Your task to perform on an android device: Search for the best rated Bluetooth earbuds on Ali express Image 0: 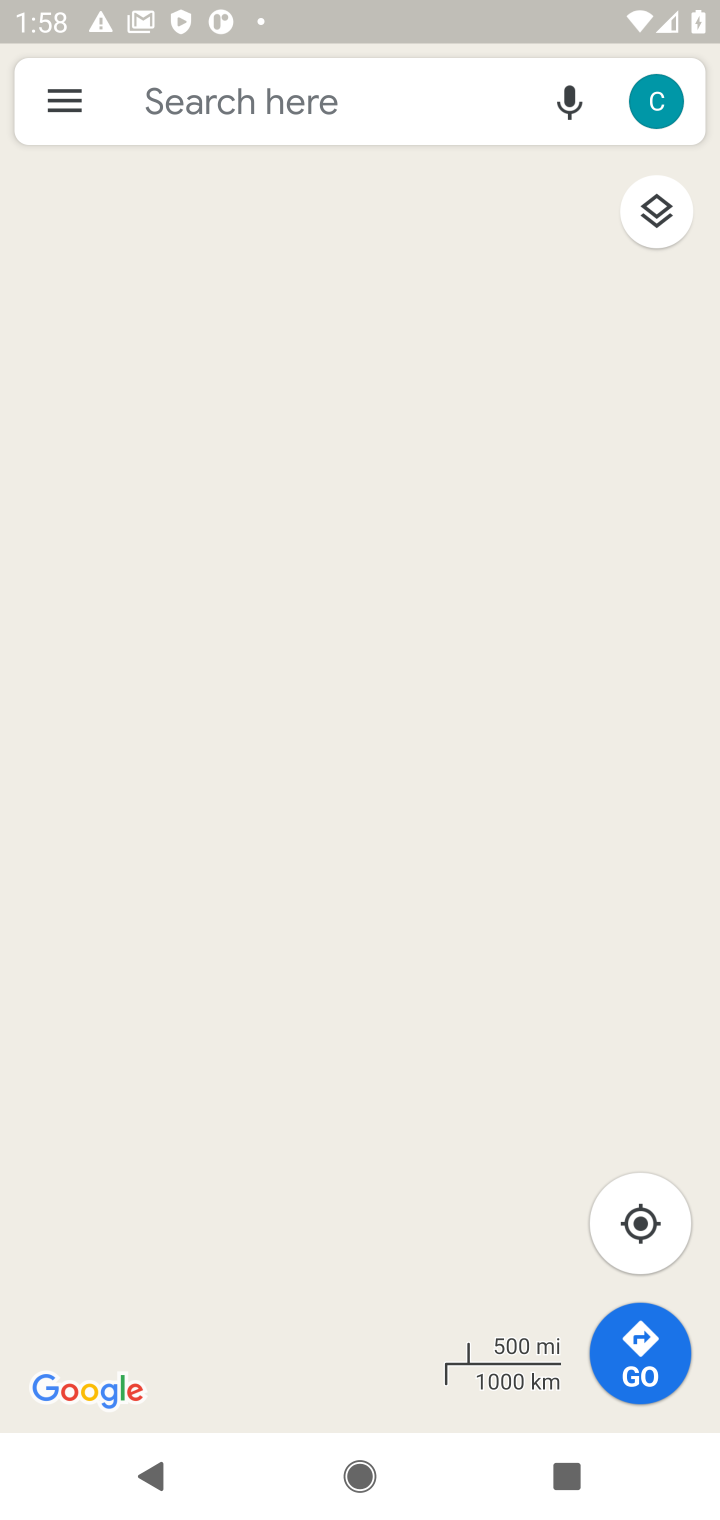
Step 0: press home button
Your task to perform on an android device: Search for the best rated Bluetooth earbuds on Ali express Image 1: 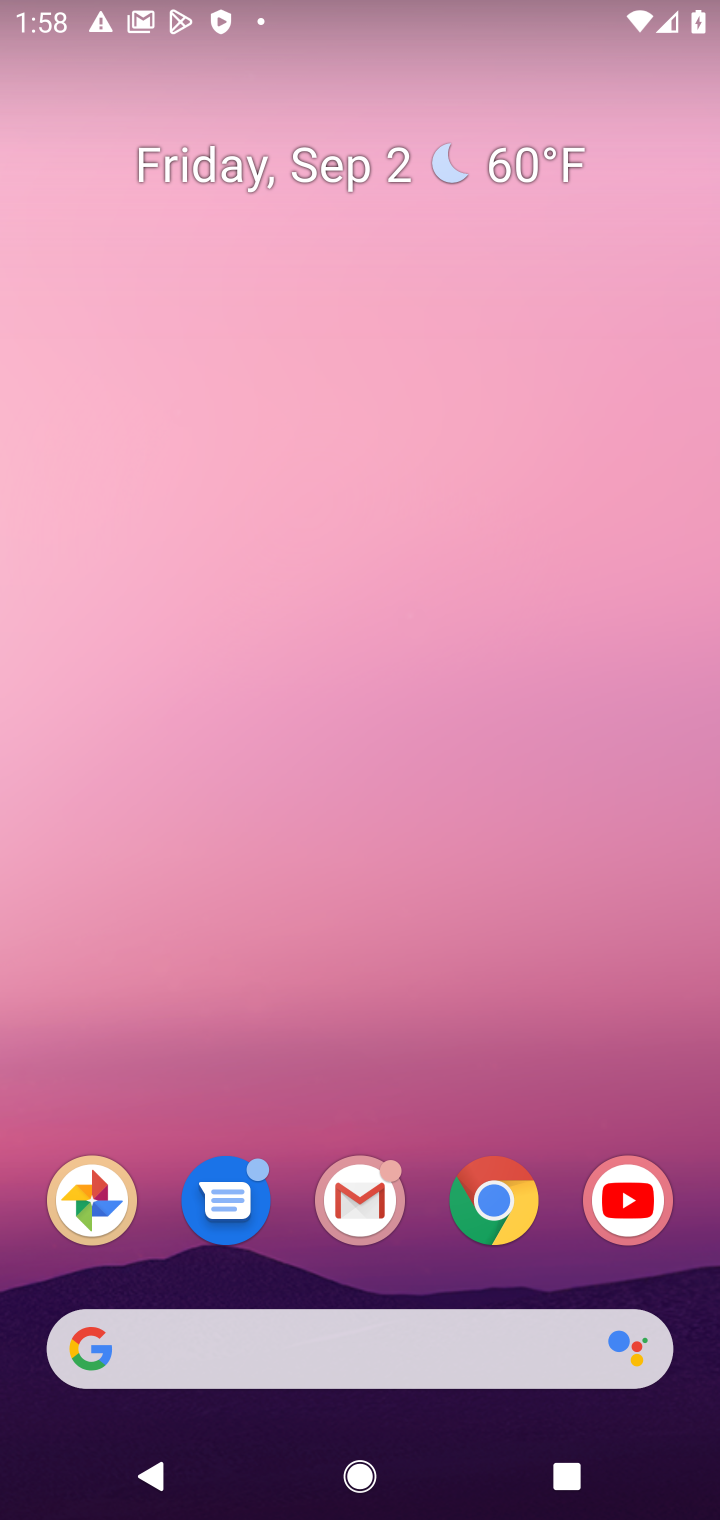
Step 1: click (485, 1186)
Your task to perform on an android device: Search for the best rated Bluetooth earbuds on Ali express Image 2: 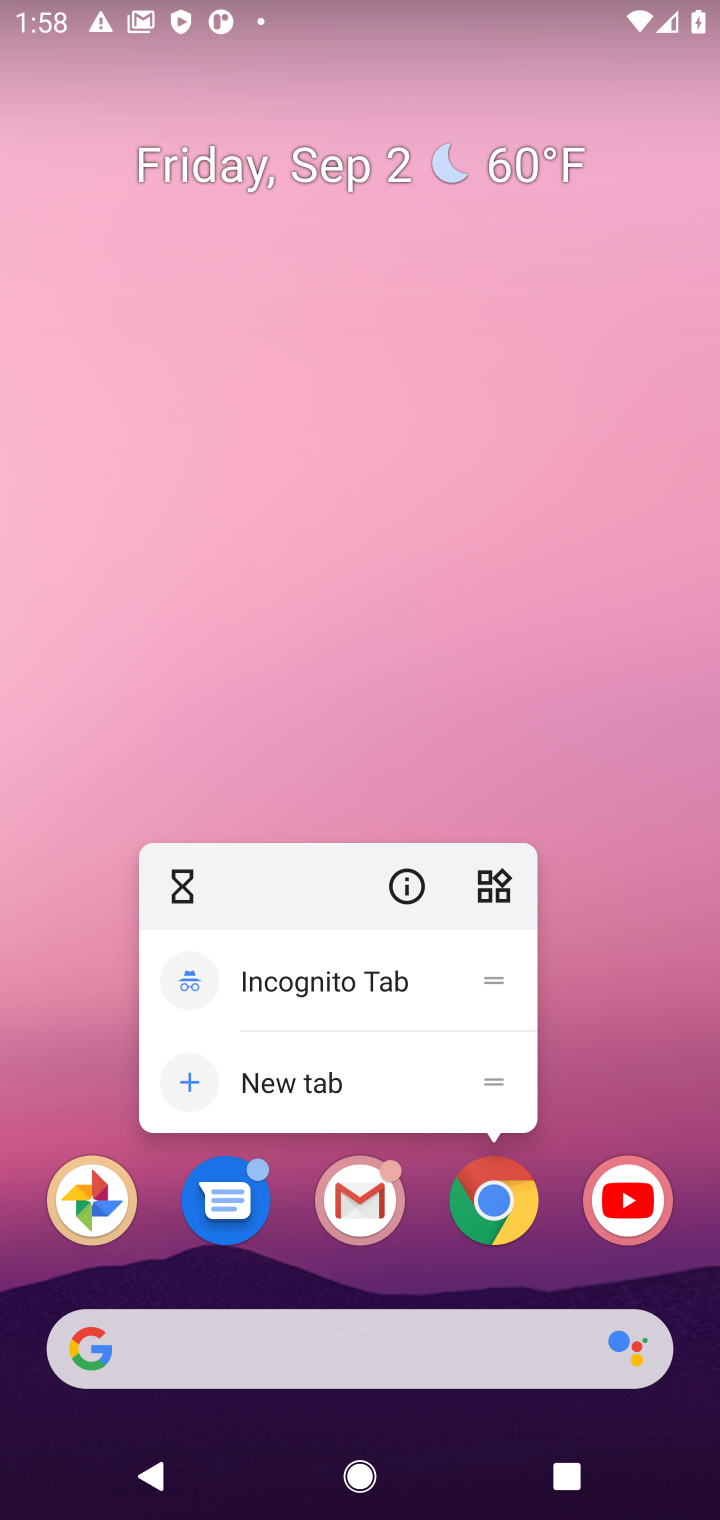
Step 2: click (485, 1186)
Your task to perform on an android device: Search for the best rated Bluetooth earbuds on Ali express Image 3: 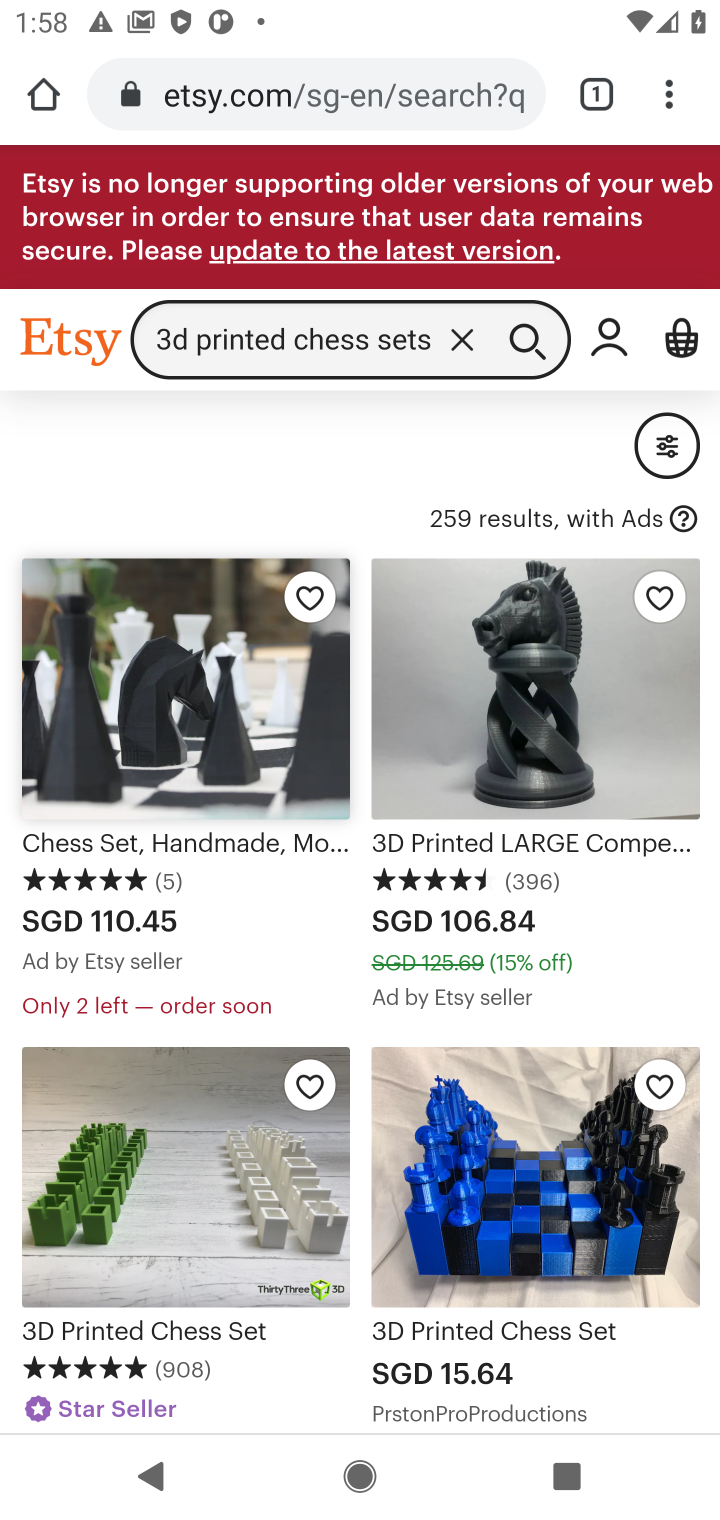
Step 3: click (477, 78)
Your task to perform on an android device: Search for the best rated Bluetooth earbuds on Ali express Image 4: 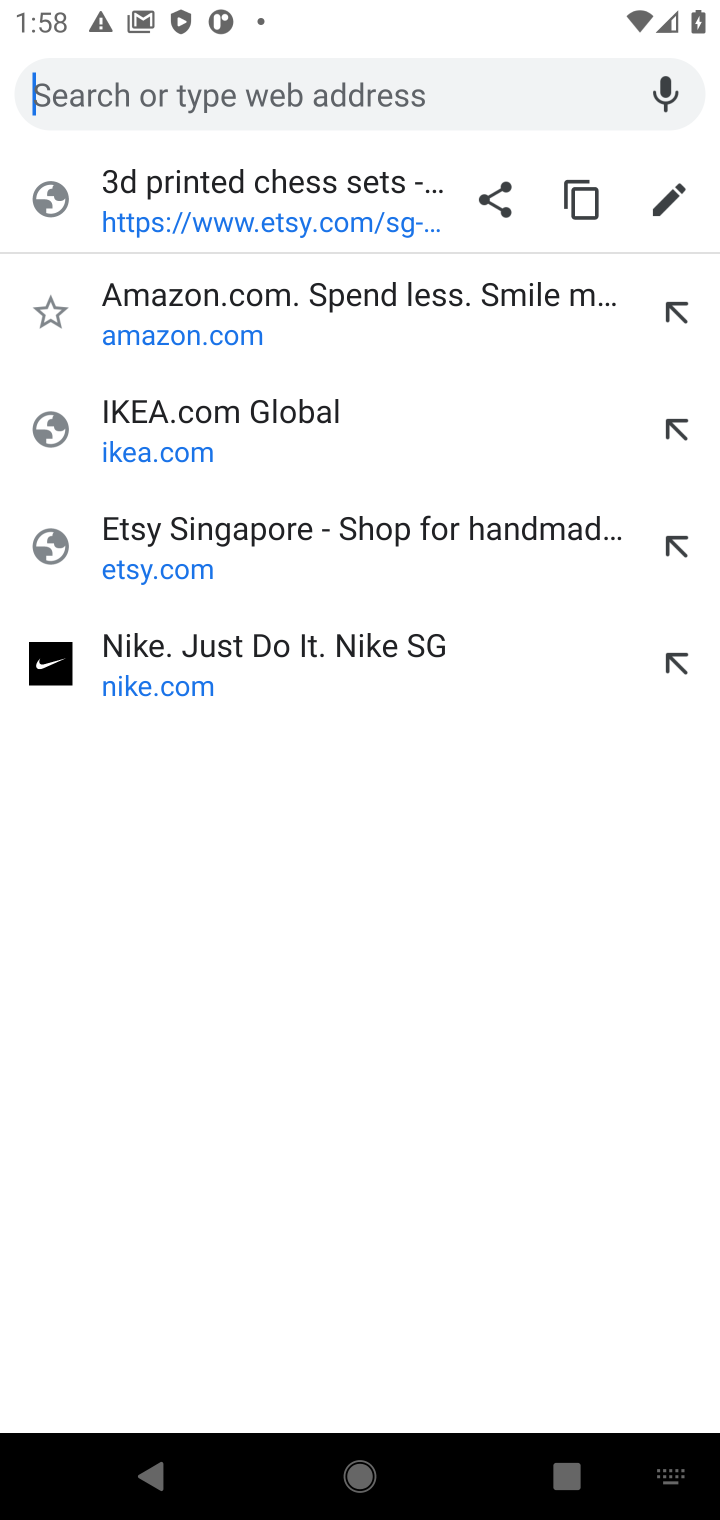
Step 4: type "Ali express"
Your task to perform on an android device: Search for the best rated Bluetooth earbuds on Ali express Image 5: 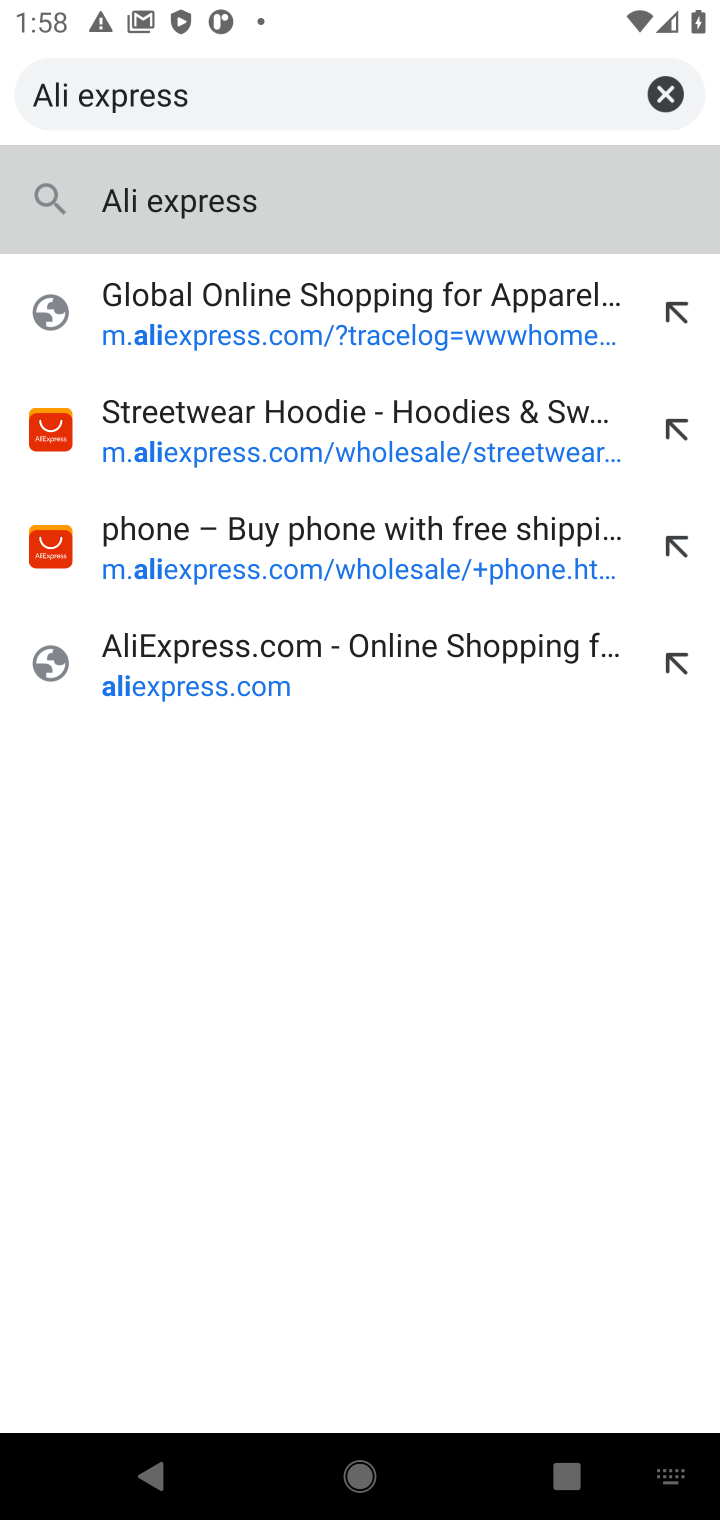
Step 5: press enter
Your task to perform on an android device: Search for the best rated Bluetooth earbuds on Ali express Image 6: 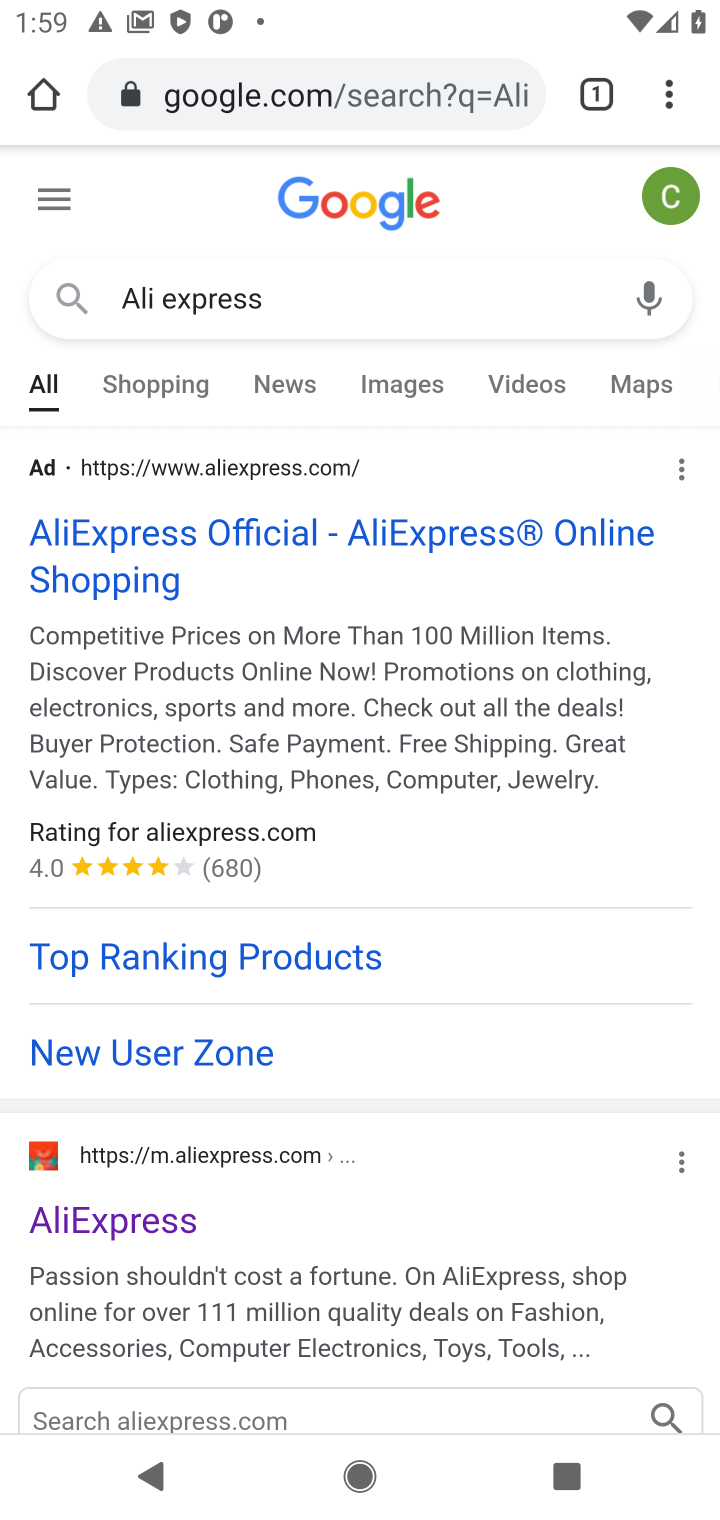
Step 6: click (405, 537)
Your task to perform on an android device: Search for the best rated Bluetooth earbuds on Ali express Image 7: 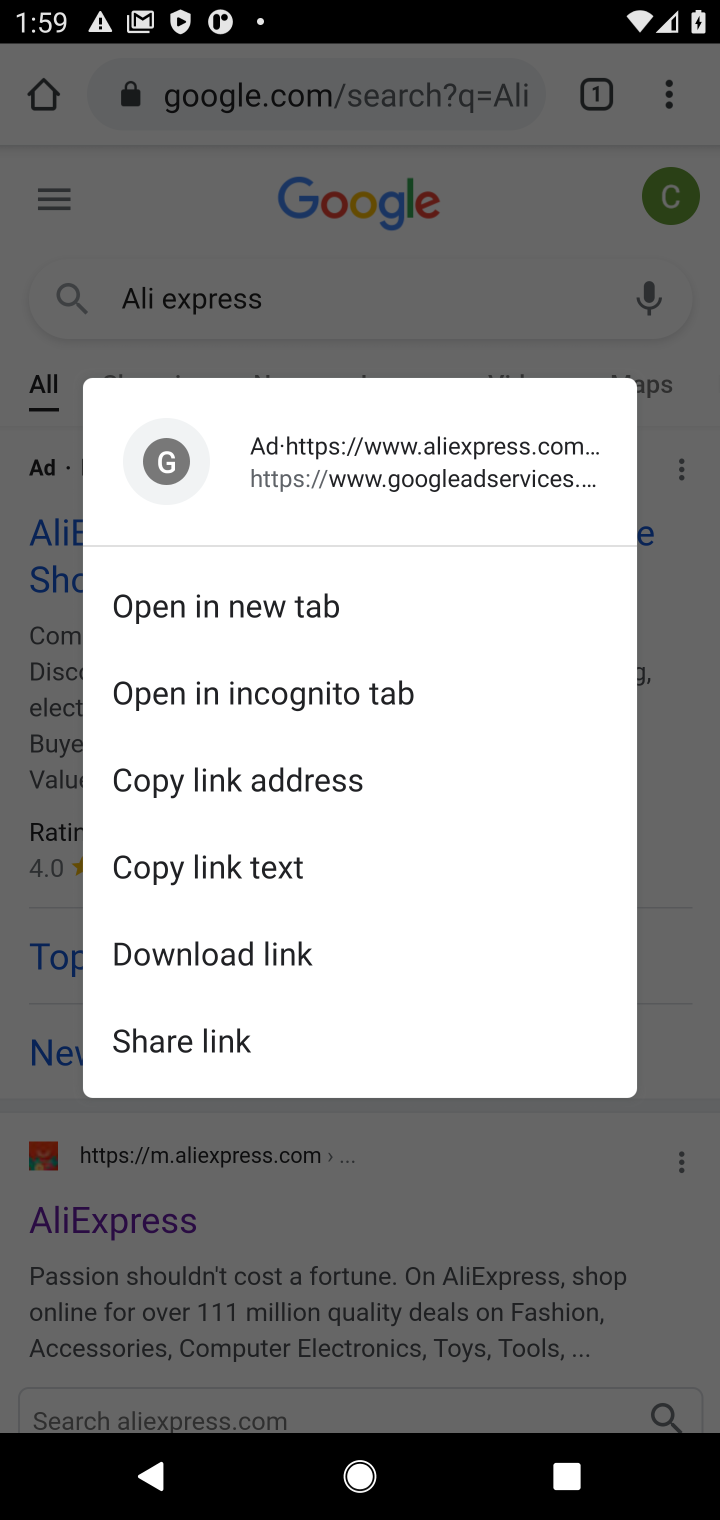
Step 7: click (629, 1143)
Your task to perform on an android device: Search for the best rated Bluetooth earbuds on Ali express Image 8: 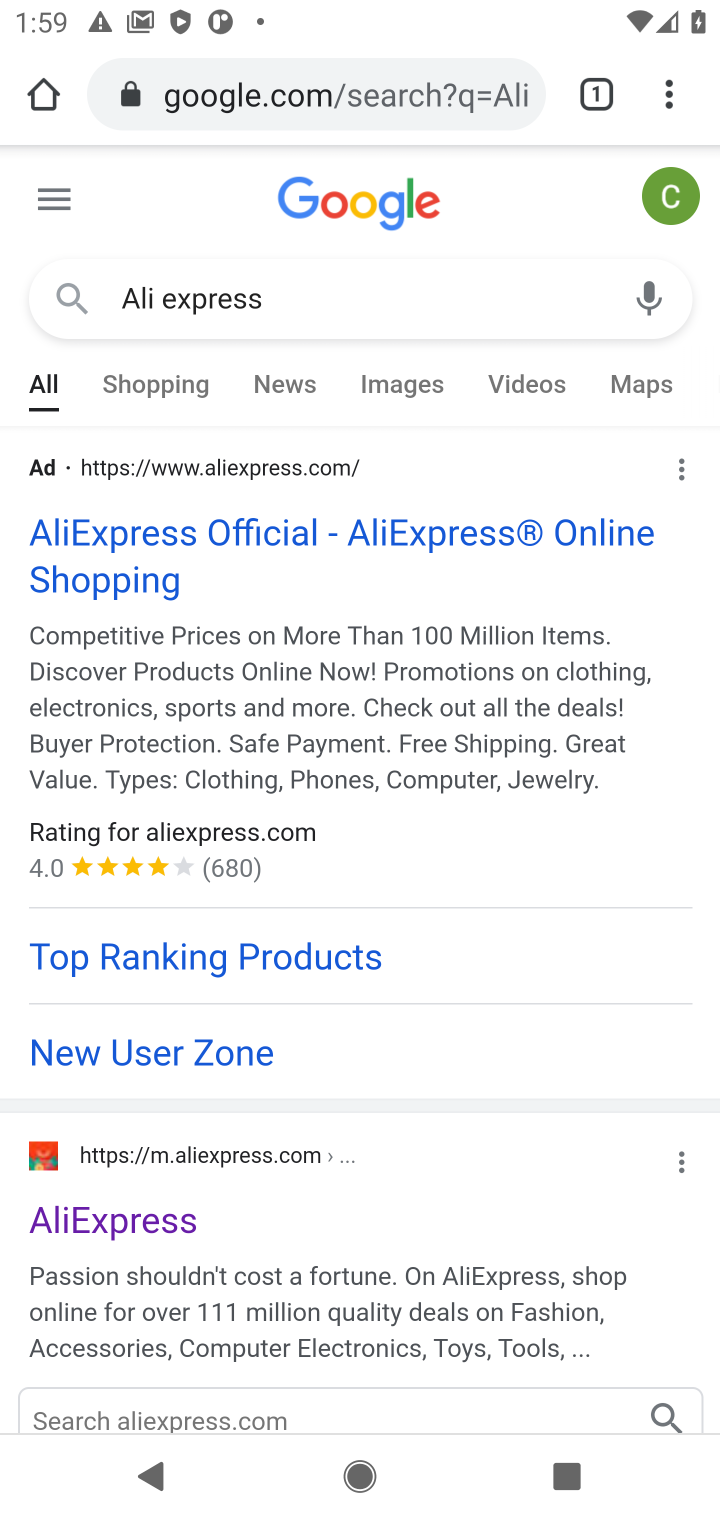
Step 8: click (375, 524)
Your task to perform on an android device: Search for the best rated Bluetooth earbuds on Ali express Image 9: 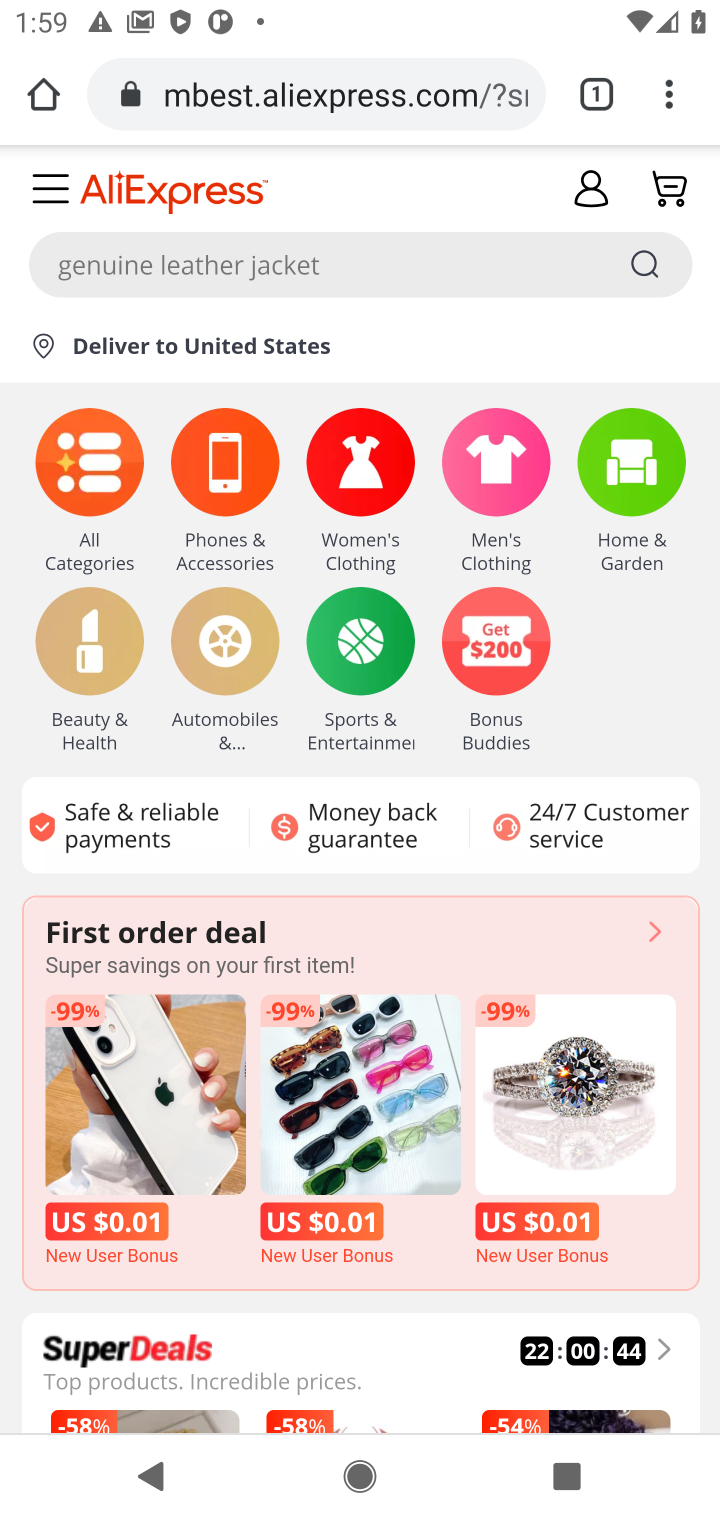
Step 9: click (337, 257)
Your task to perform on an android device: Search for the best rated Bluetooth earbuds on Ali express Image 10: 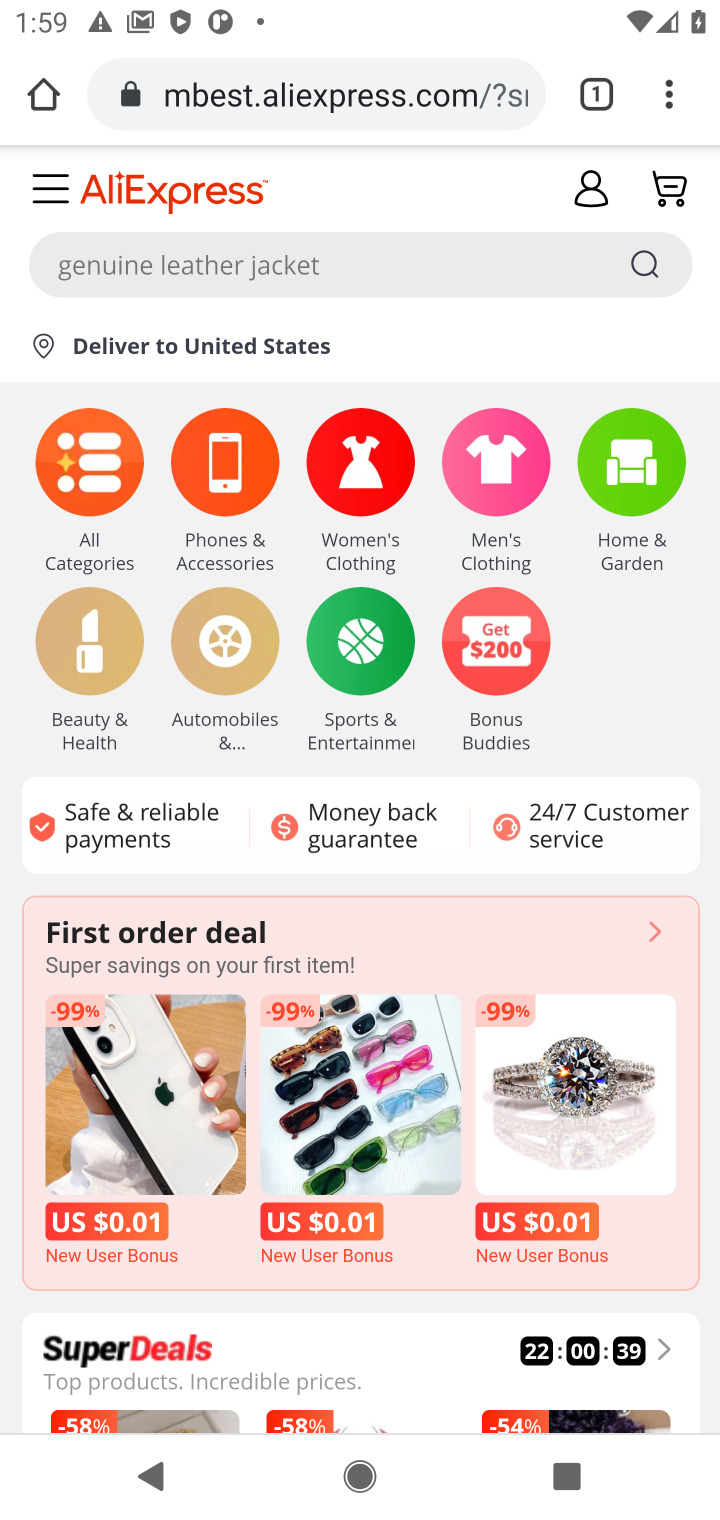
Step 10: click (295, 263)
Your task to perform on an android device: Search for the best rated Bluetooth earbuds on Ali express Image 11: 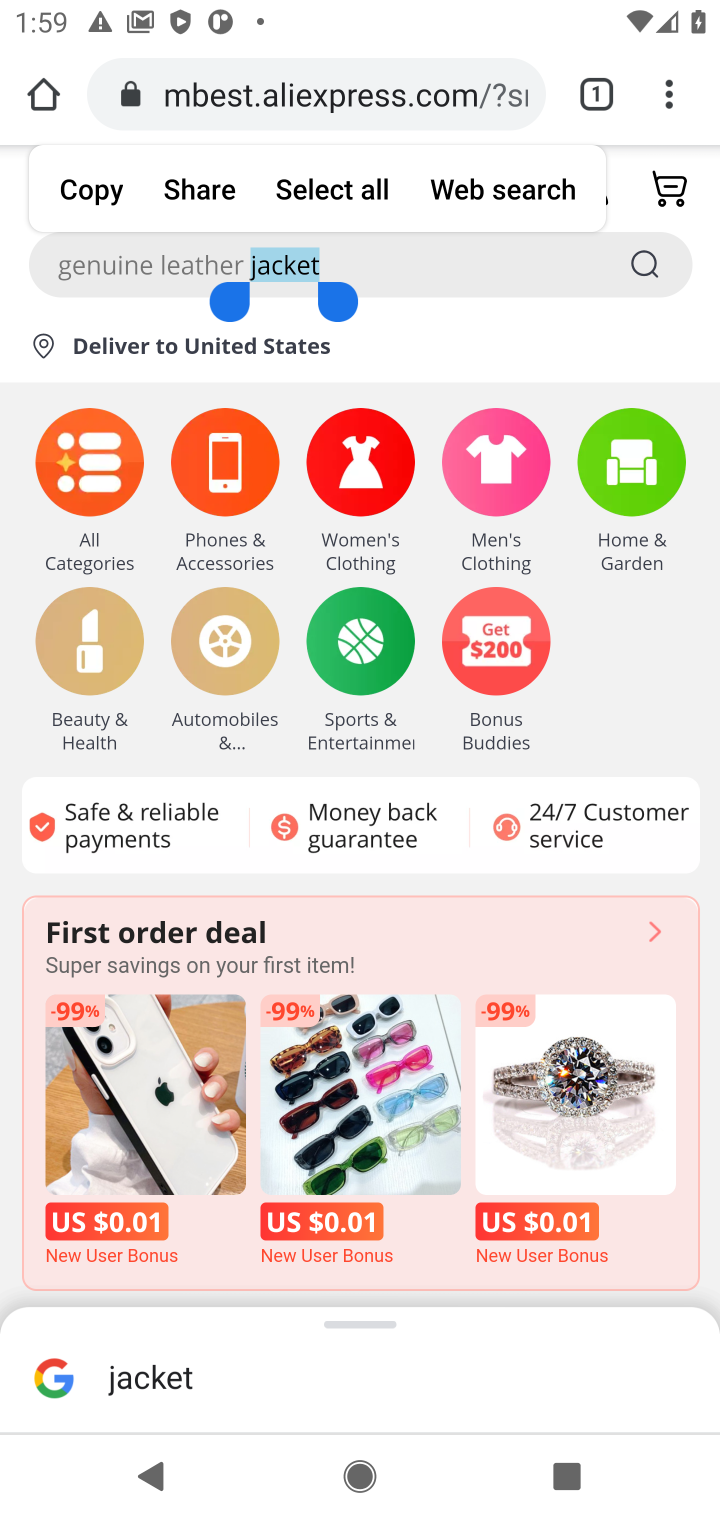
Step 11: click (642, 261)
Your task to perform on an android device: Search for the best rated Bluetooth earbuds on Ali express Image 12: 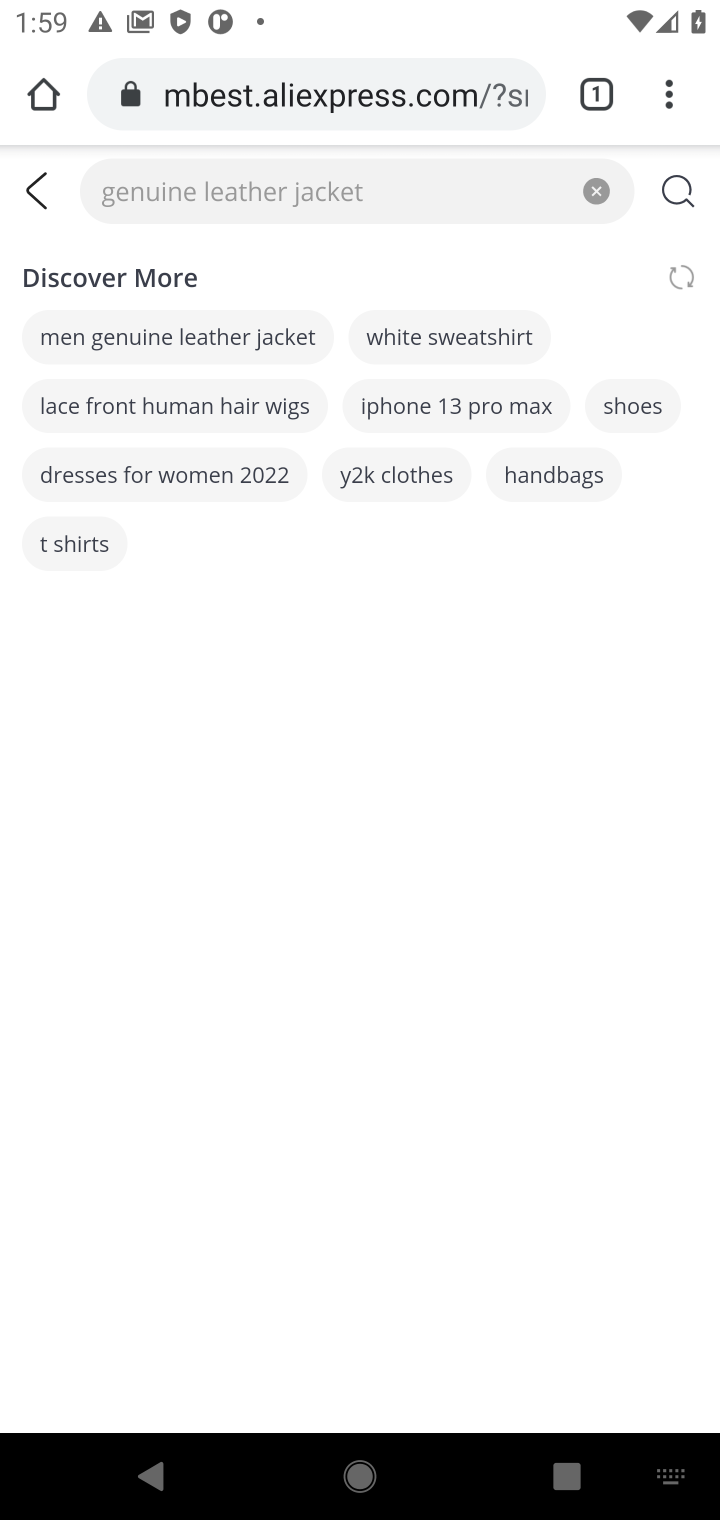
Step 12: click (585, 183)
Your task to perform on an android device: Search for the best rated Bluetooth earbuds on Ali express Image 13: 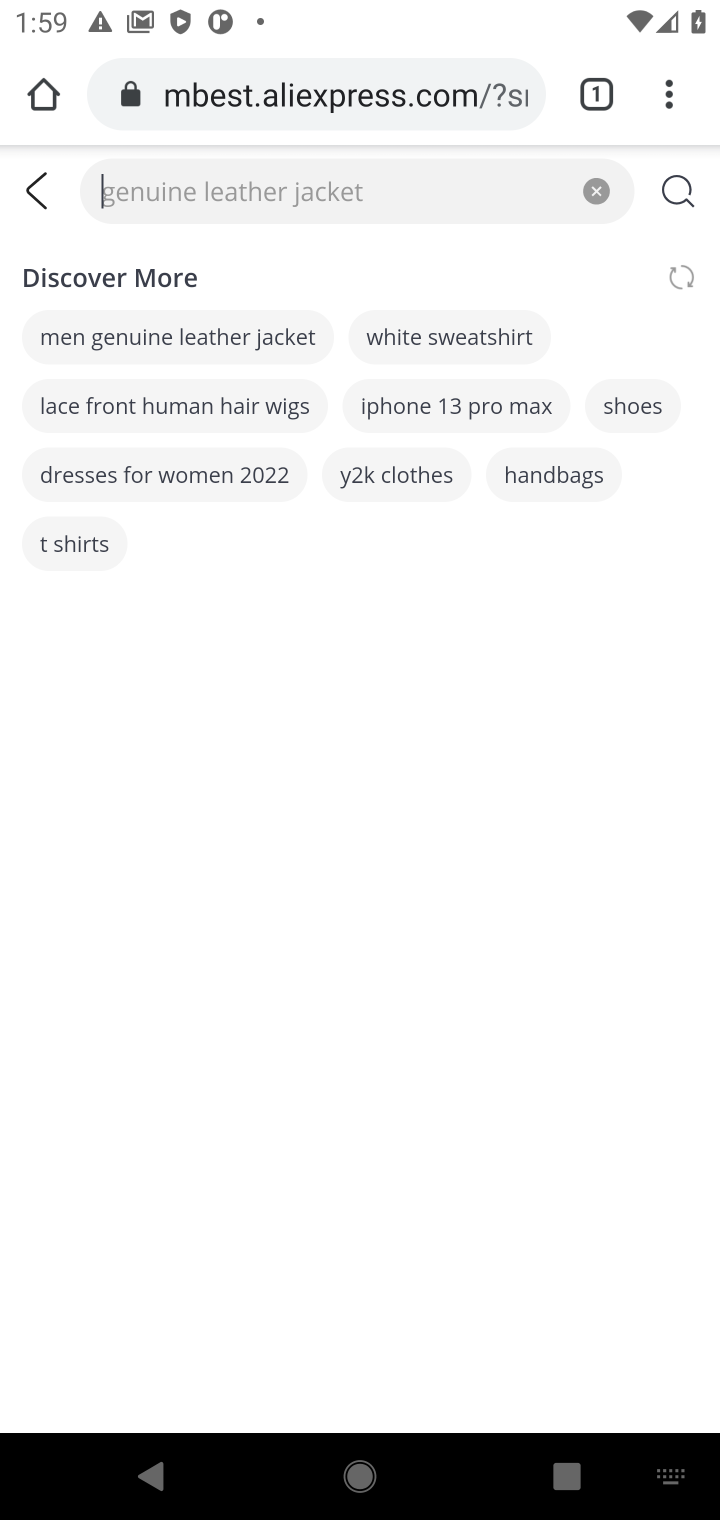
Step 13: click (595, 189)
Your task to perform on an android device: Search for the best rated Bluetooth earbuds on Ali express Image 14: 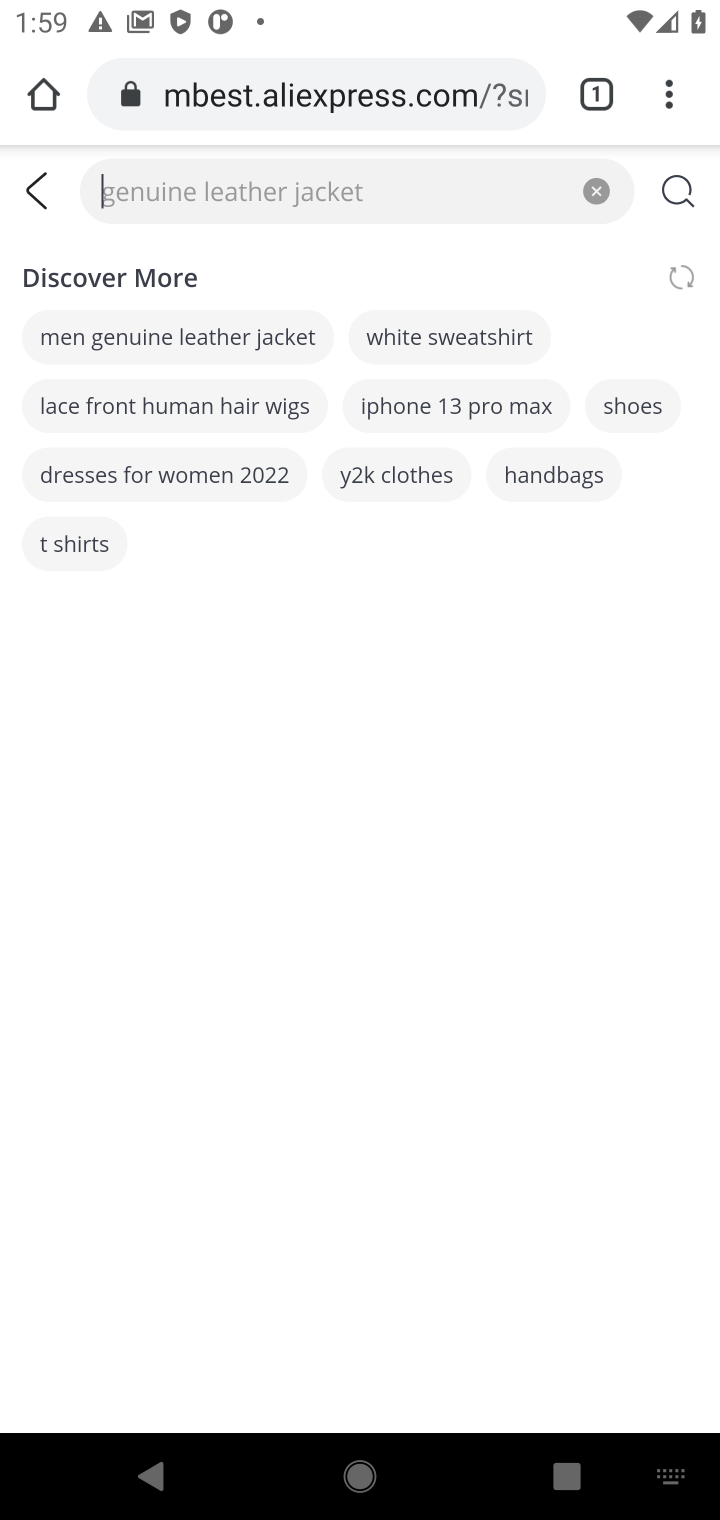
Step 14: click (591, 183)
Your task to perform on an android device: Search for the best rated Bluetooth earbuds on Ali express Image 15: 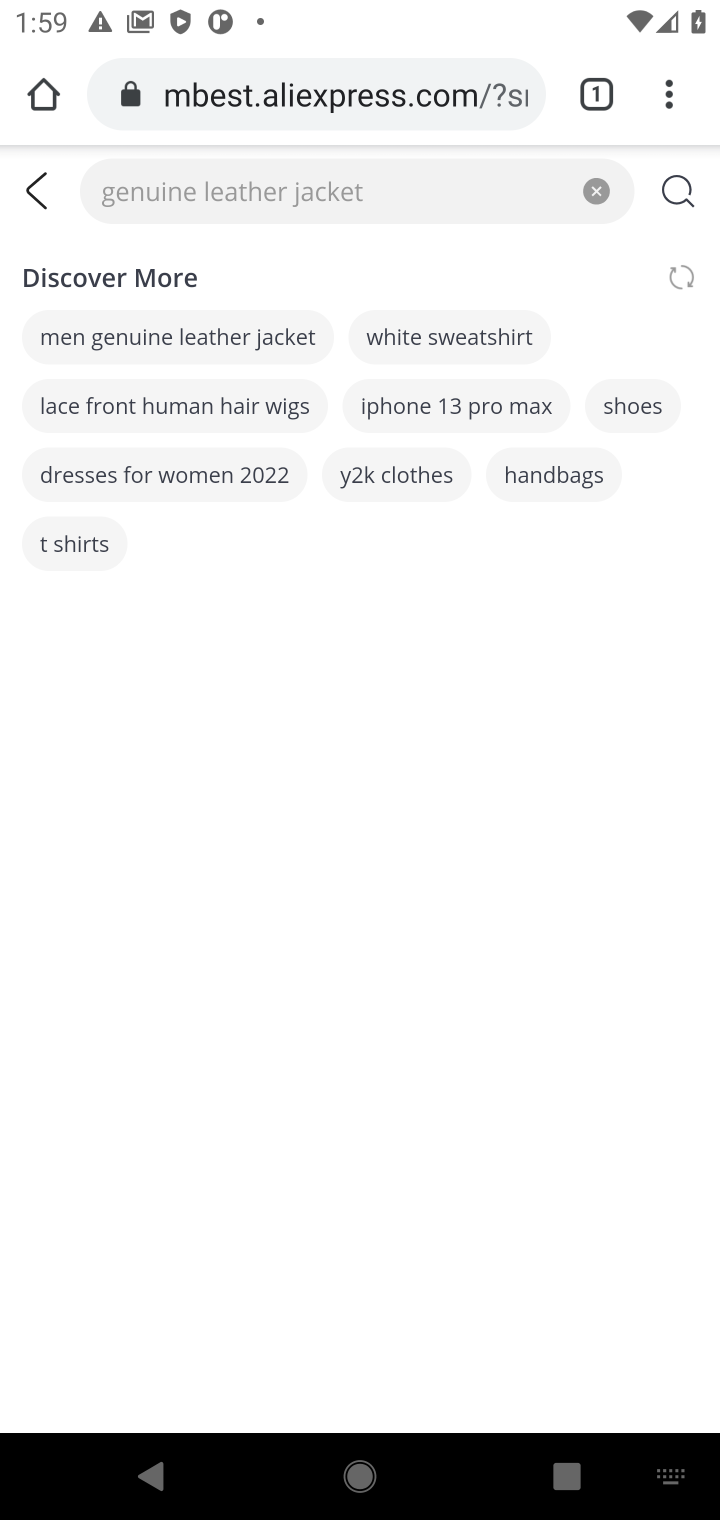
Step 15: click (512, 192)
Your task to perform on an android device: Search for the best rated Bluetooth earbuds on Ali express Image 16: 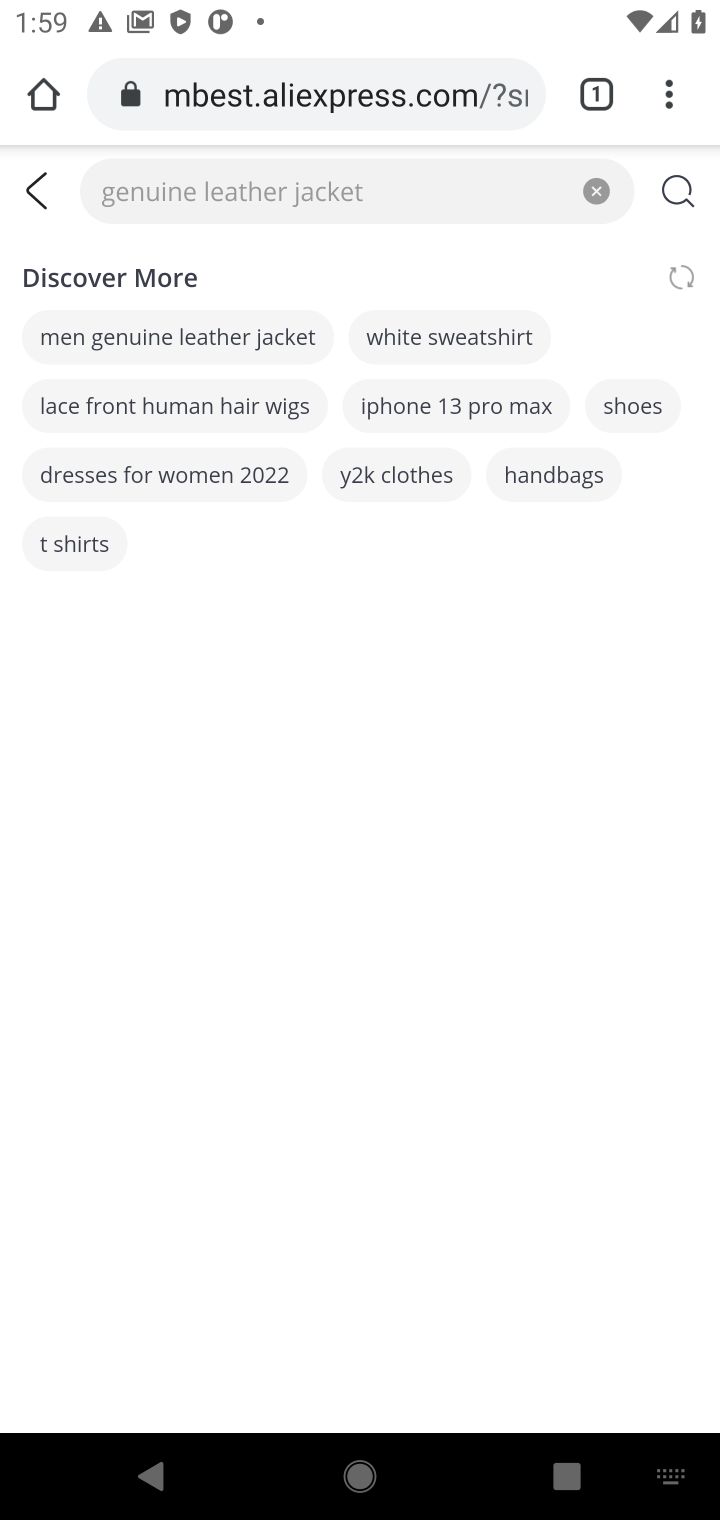
Step 16: press enter
Your task to perform on an android device: Search for the best rated Bluetooth earbuds on Ali express Image 17: 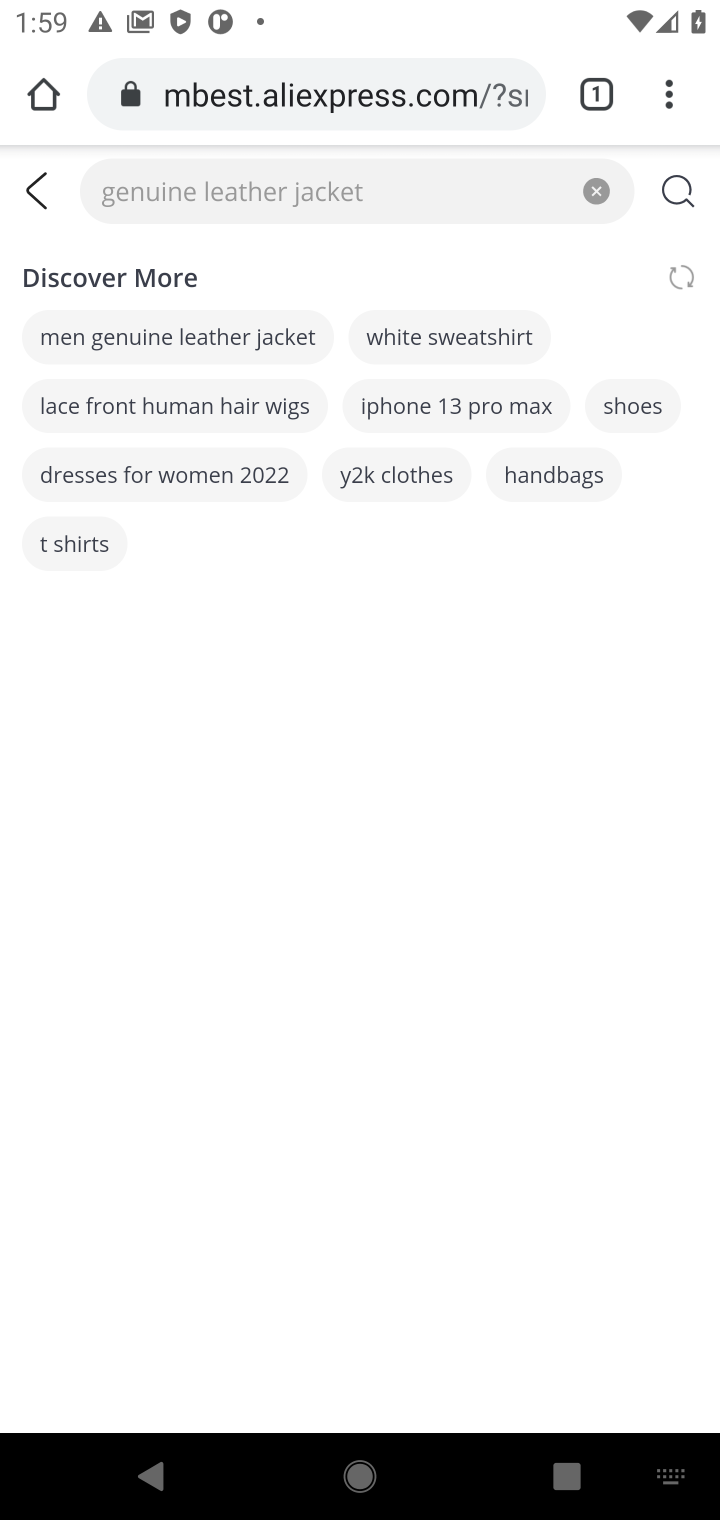
Step 17: type "Bluetooth earbuds"
Your task to perform on an android device: Search for the best rated Bluetooth earbuds on Ali express Image 18: 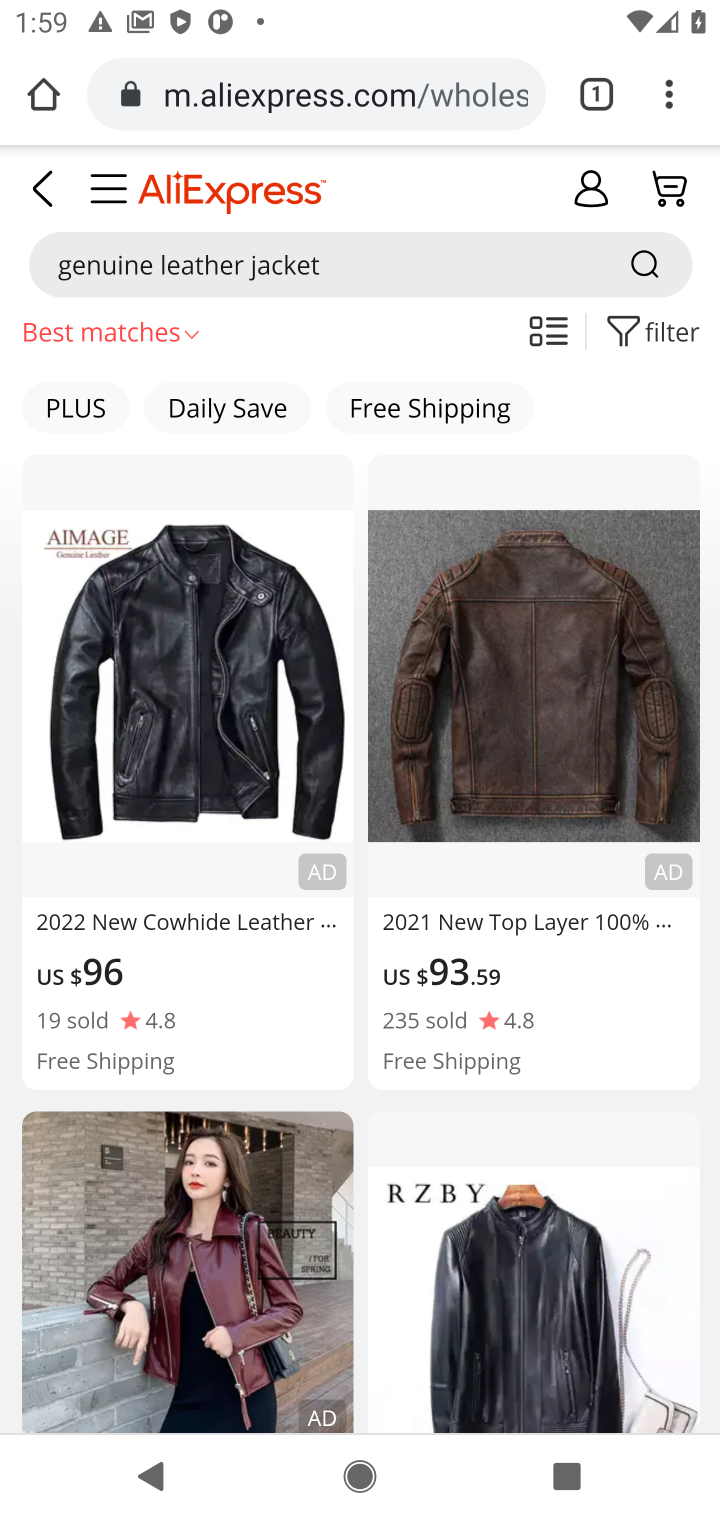
Step 18: click (459, 273)
Your task to perform on an android device: Search for the best rated Bluetooth earbuds on Ali express Image 19: 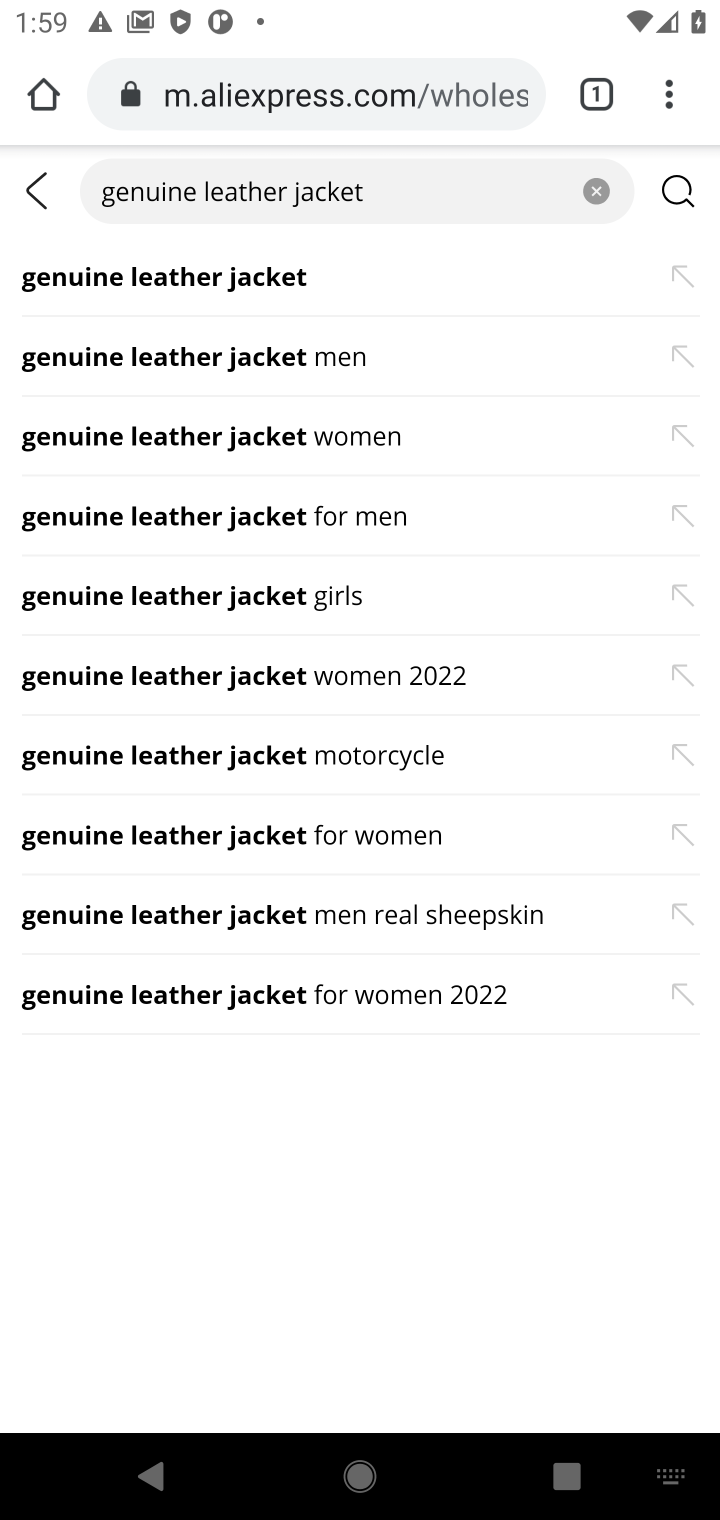
Step 19: click (635, 262)
Your task to perform on an android device: Search for the best rated Bluetooth earbuds on Ali express Image 20: 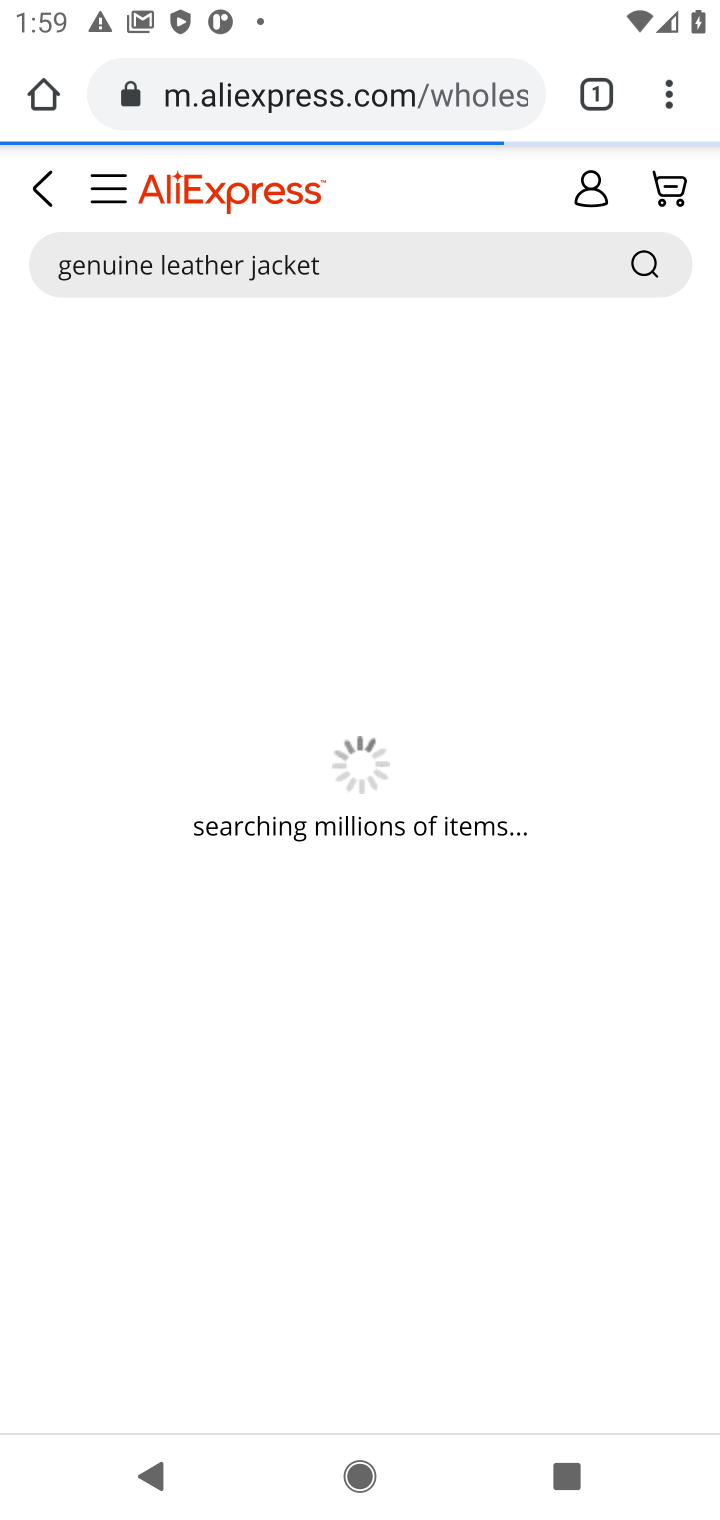
Step 20: click (593, 187)
Your task to perform on an android device: Search for the best rated Bluetooth earbuds on Ali express Image 21: 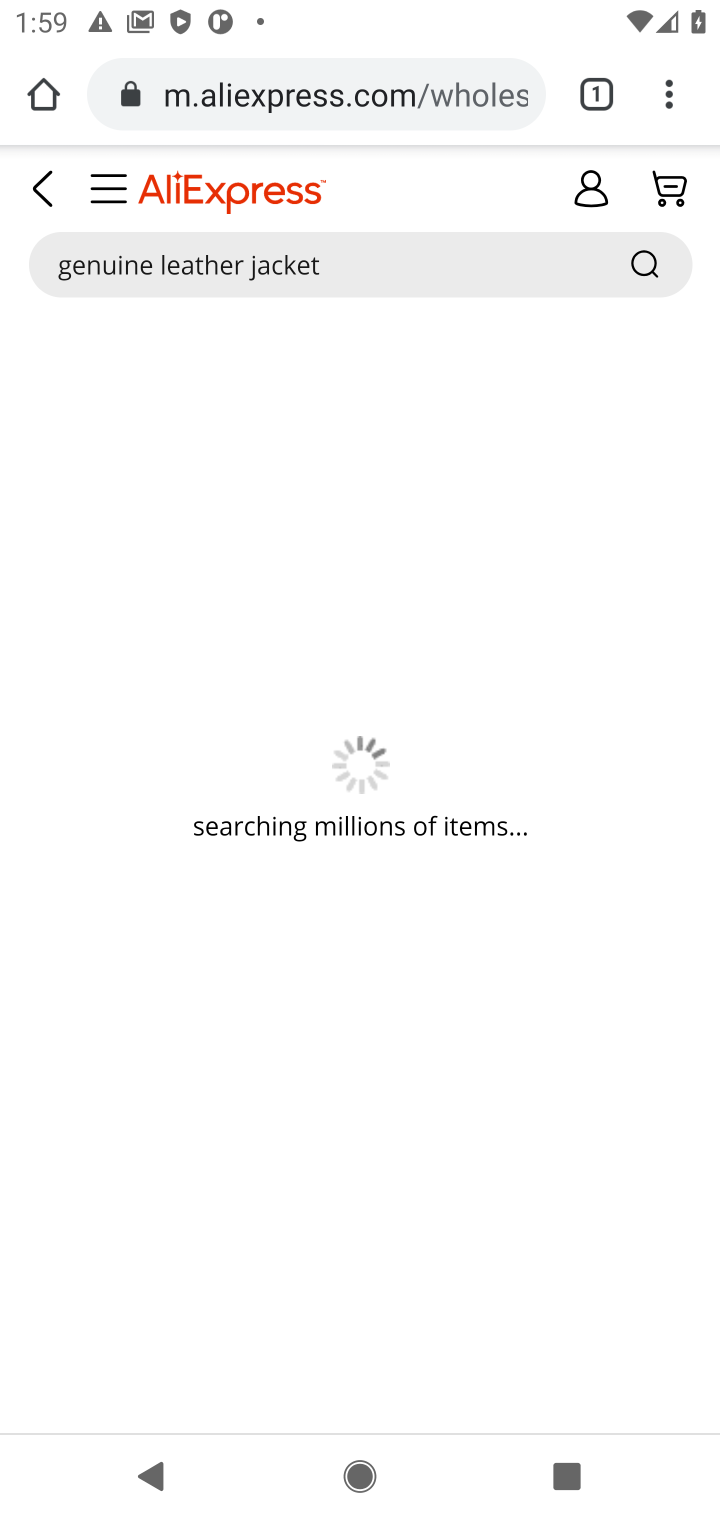
Step 21: click (597, 265)
Your task to perform on an android device: Search for the best rated Bluetooth earbuds on Ali express Image 22: 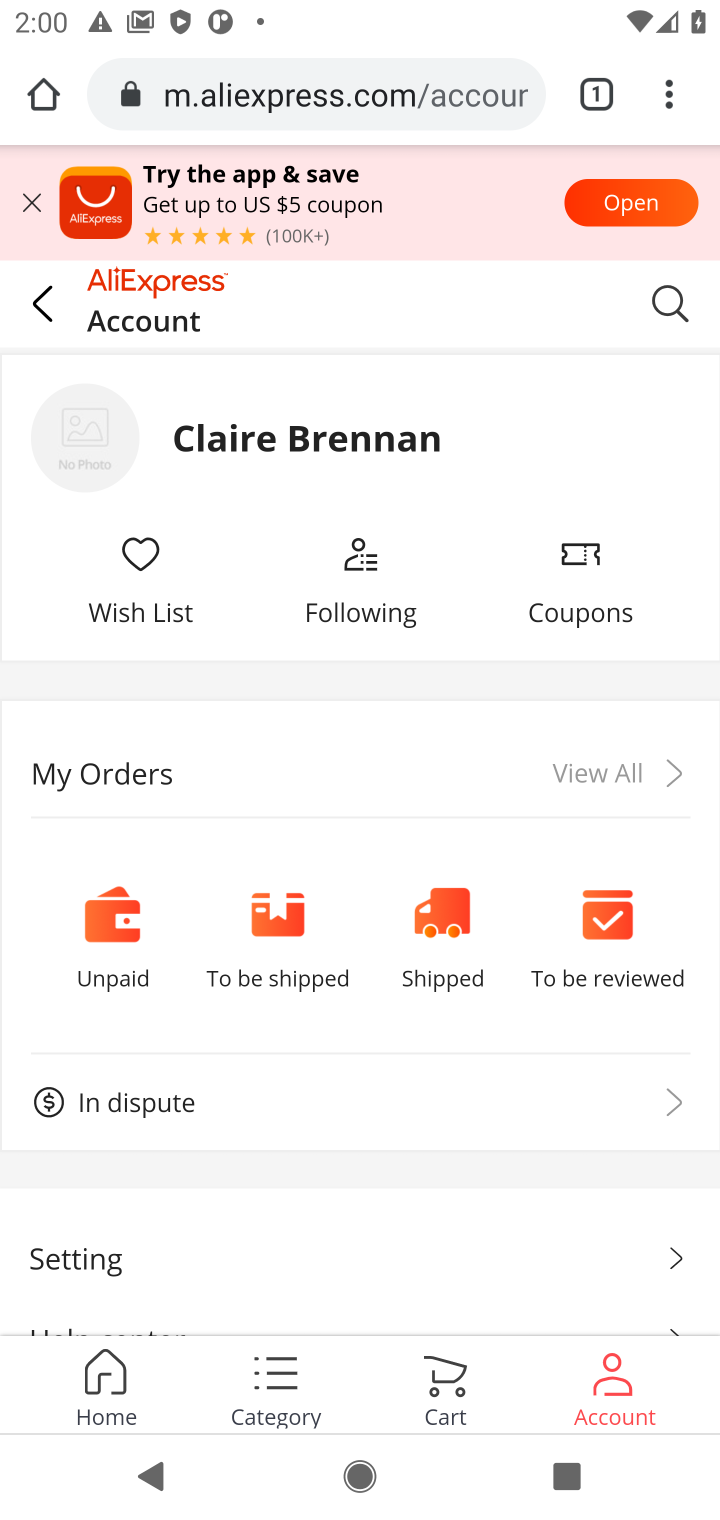
Step 22: press back button
Your task to perform on an android device: Search for the best rated Bluetooth earbuds on Ali express Image 23: 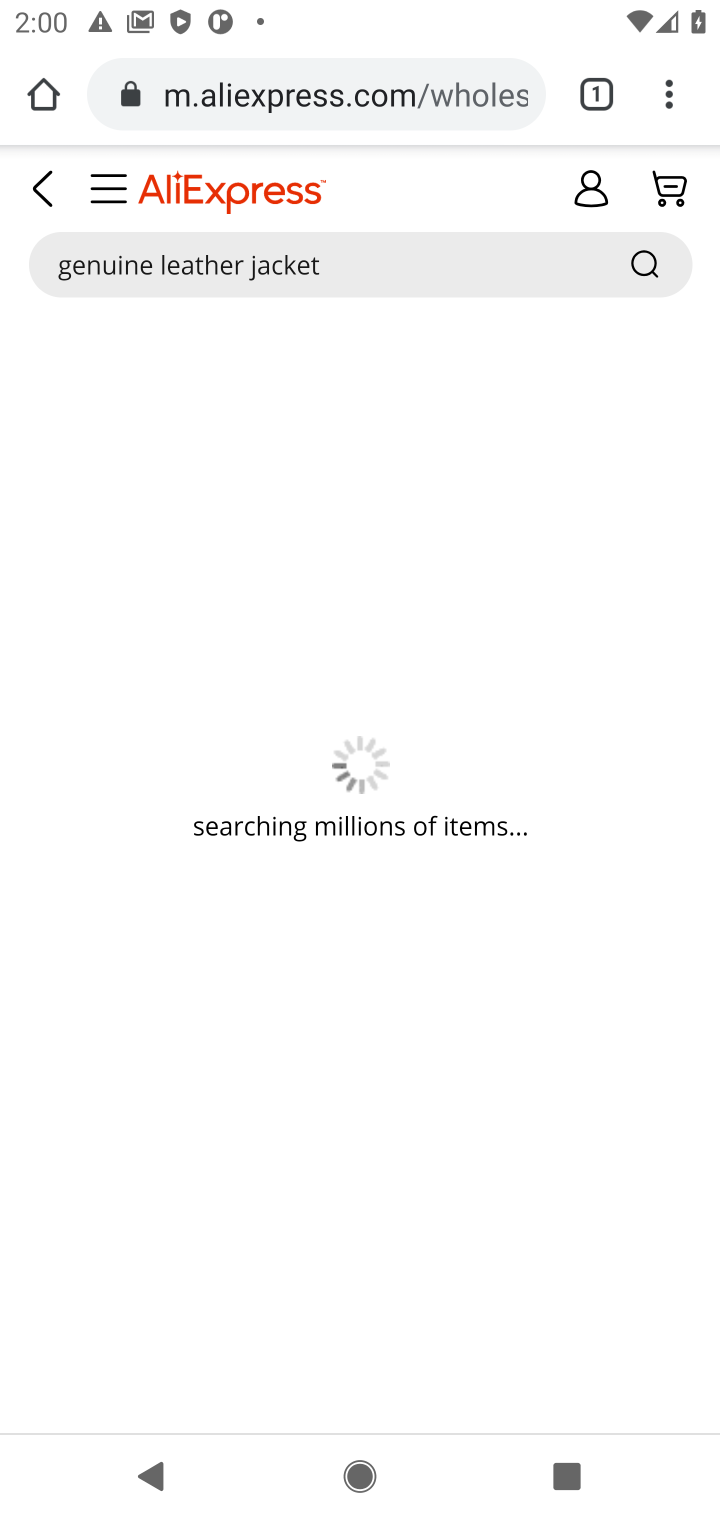
Step 23: click (638, 253)
Your task to perform on an android device: Search for the best rated Bluetooth earbuds on Ali express Image 24: 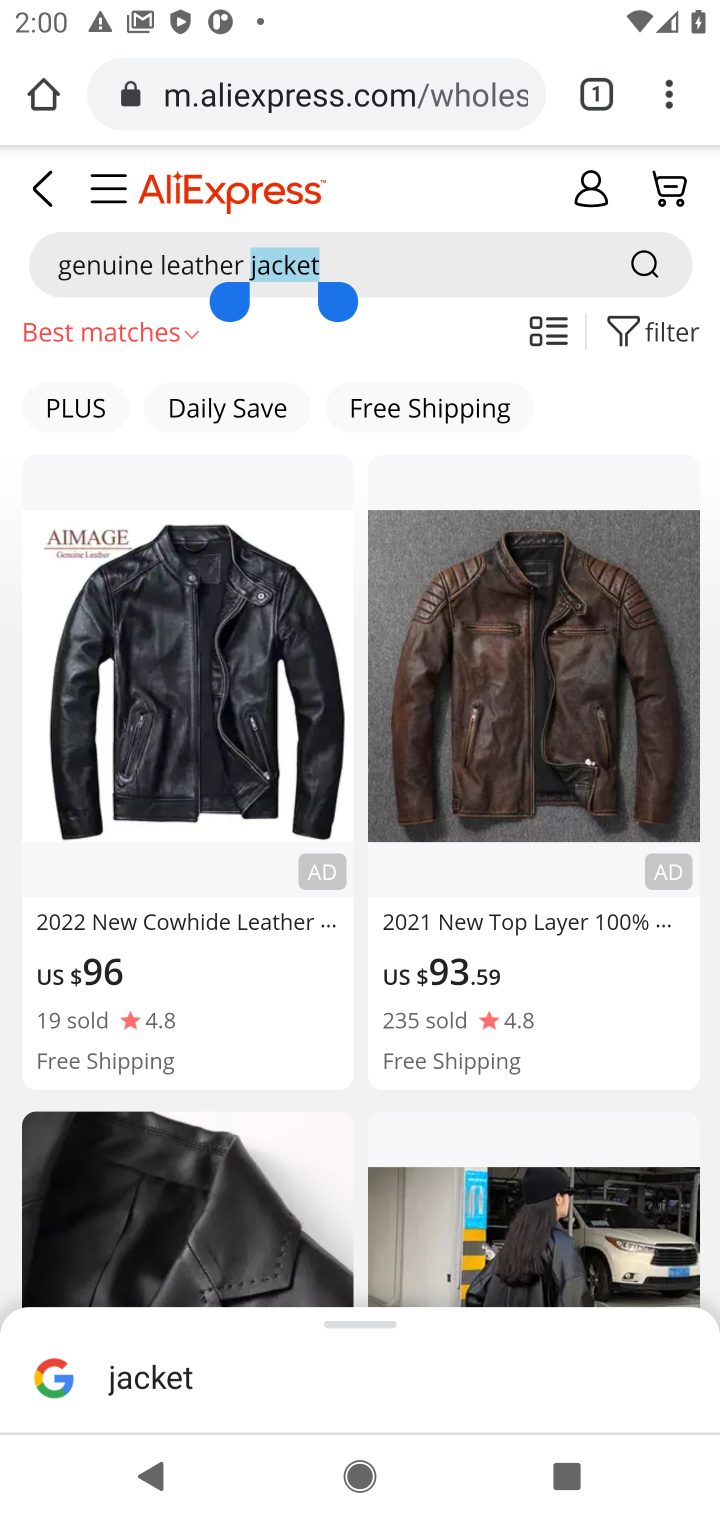
Step 24: click (642, 255)
Your task to perform on an android device: Search for the best rated Bluetooth earbuds on Ali express Image 25: 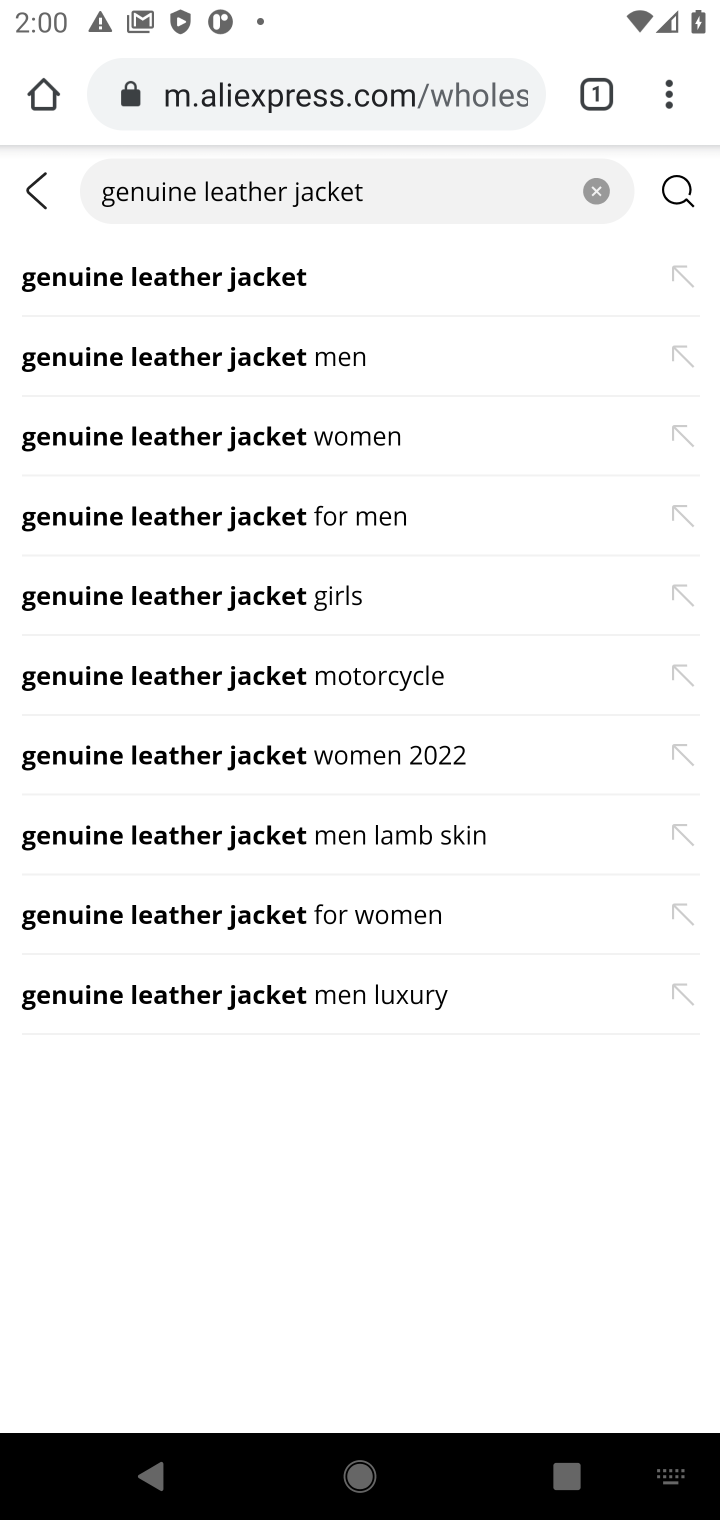
Step 25: click (589, 188)
Your task to perform on an android device: Search for the best rated Bluetooth earbuds on Ali express Image 26: 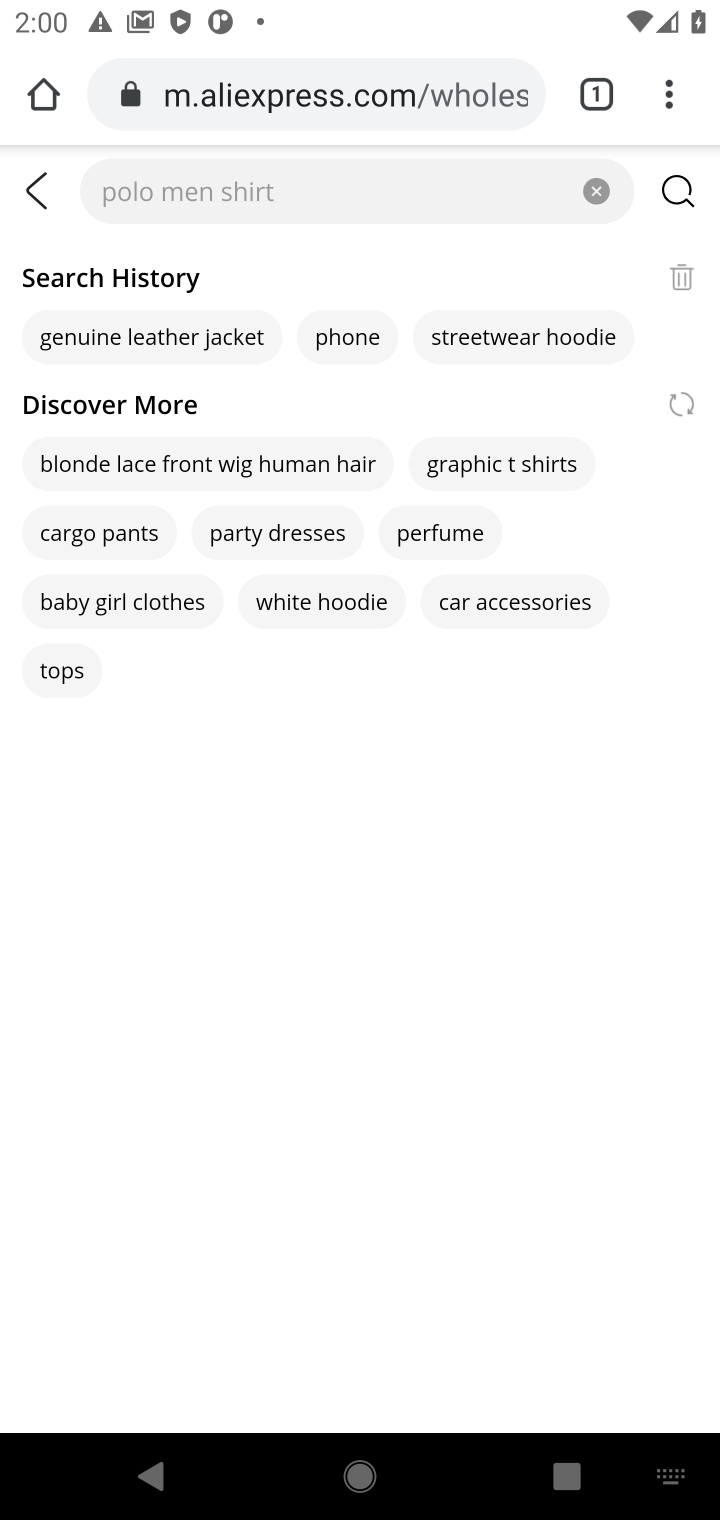
Step 26: click (481, 200)
Your task to perform on an android device: Search for the best rated Bluetooth earbuds on Ali express Image 27: 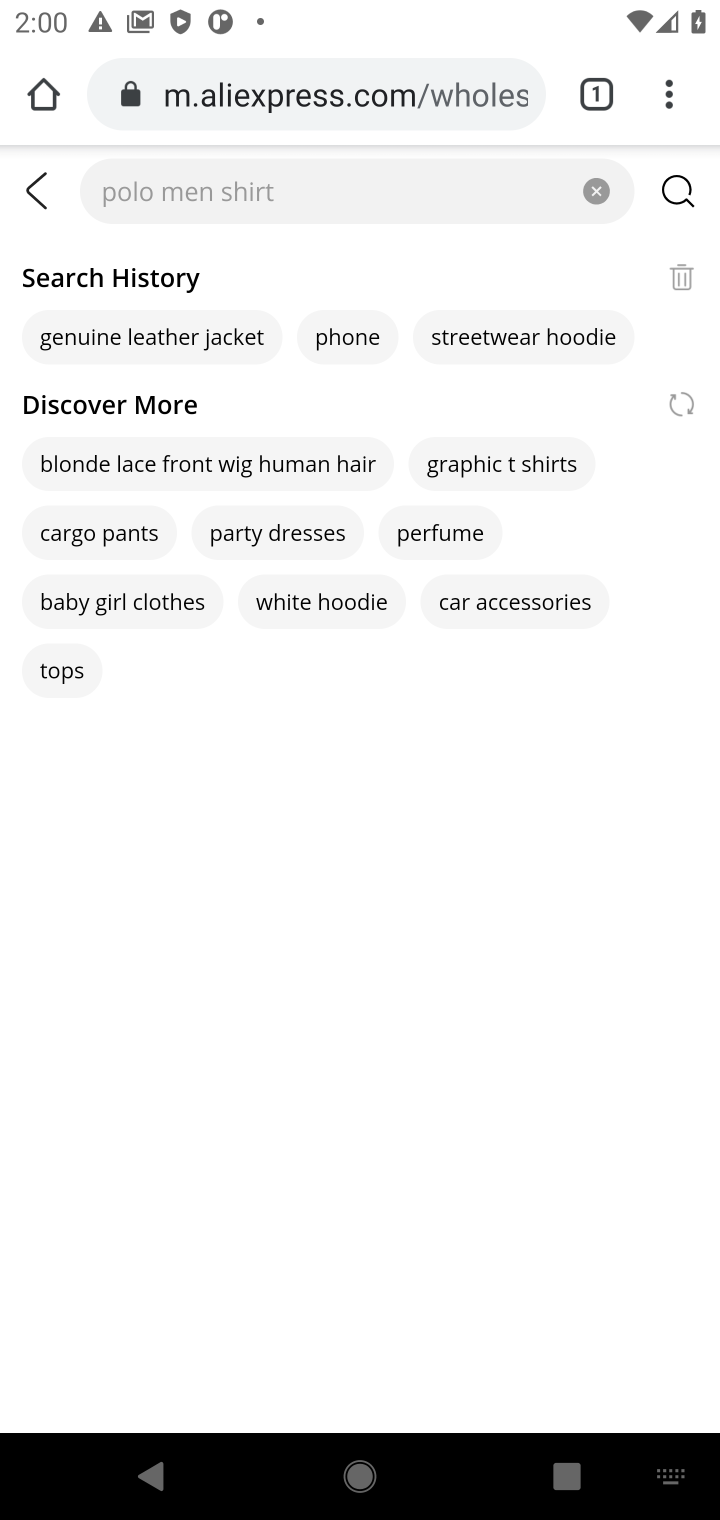
Step 27: click (490, 195)
Your task to perform on an android device: Search for the best rated Bluetooth earbuds on Ali express Image 28: 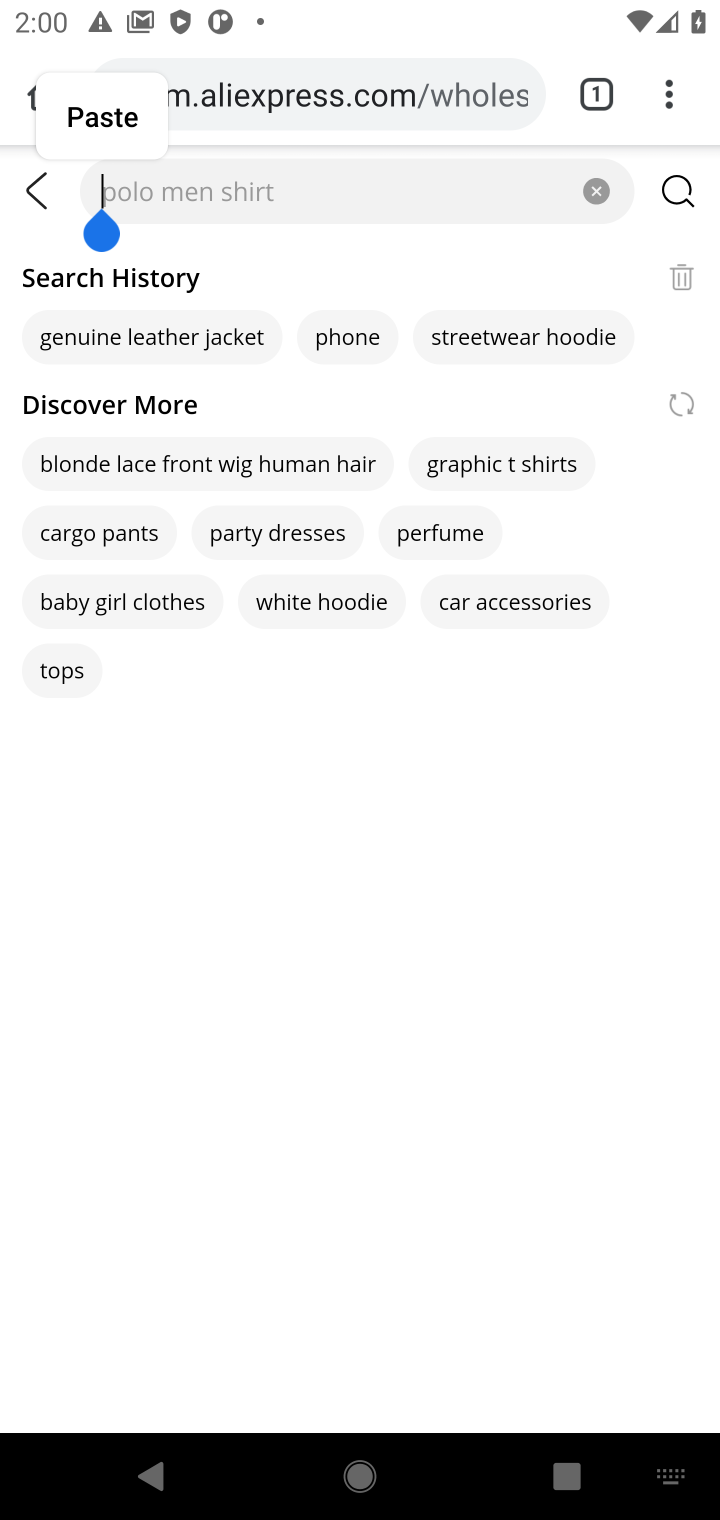
Step 28: type "Bluetooth earbuds "
Your task to perform on an android device: Search for the best rated Bluetooth earbuds on Ali express Image 29: 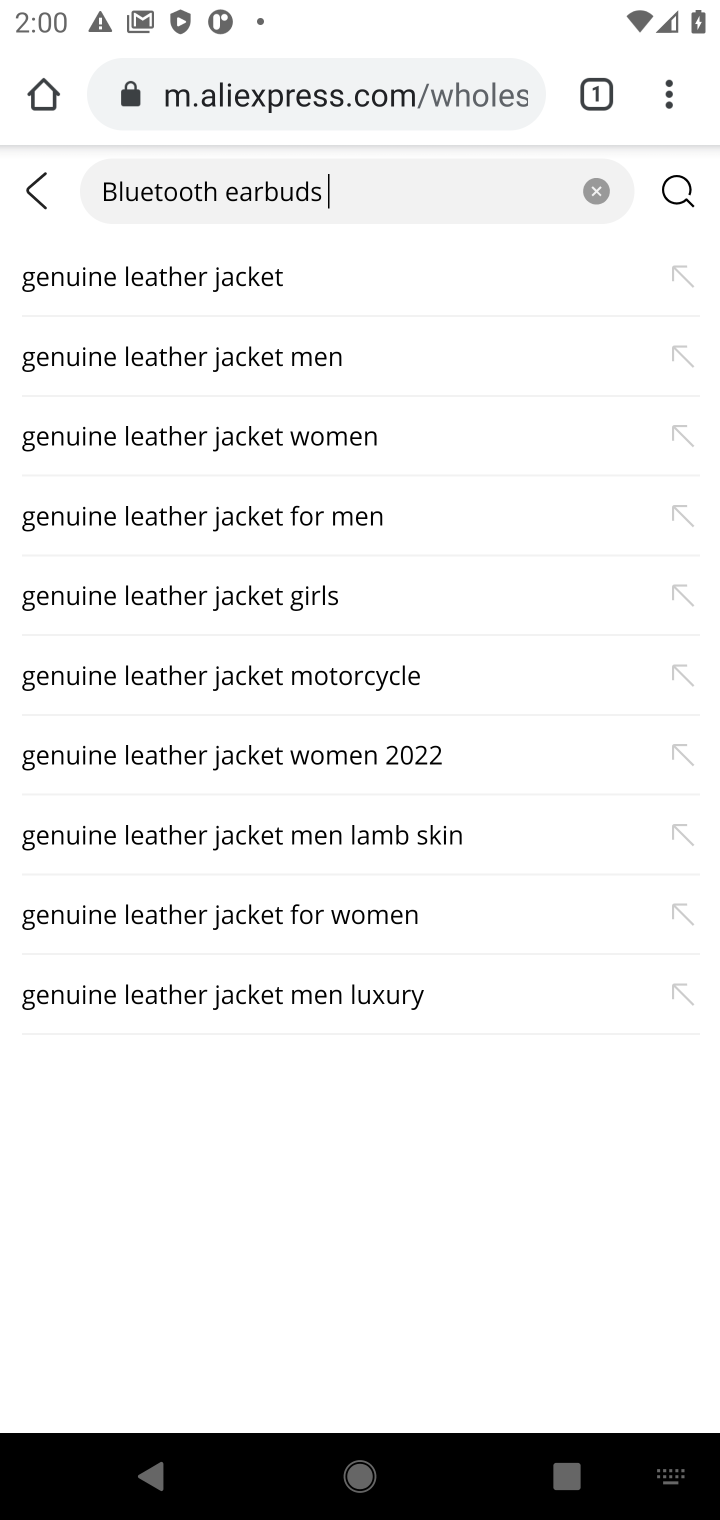
Step 29: press enter
Your task to perform on an android device: Search for the best rated Bluetooth earbuds on Ali express Image 30: 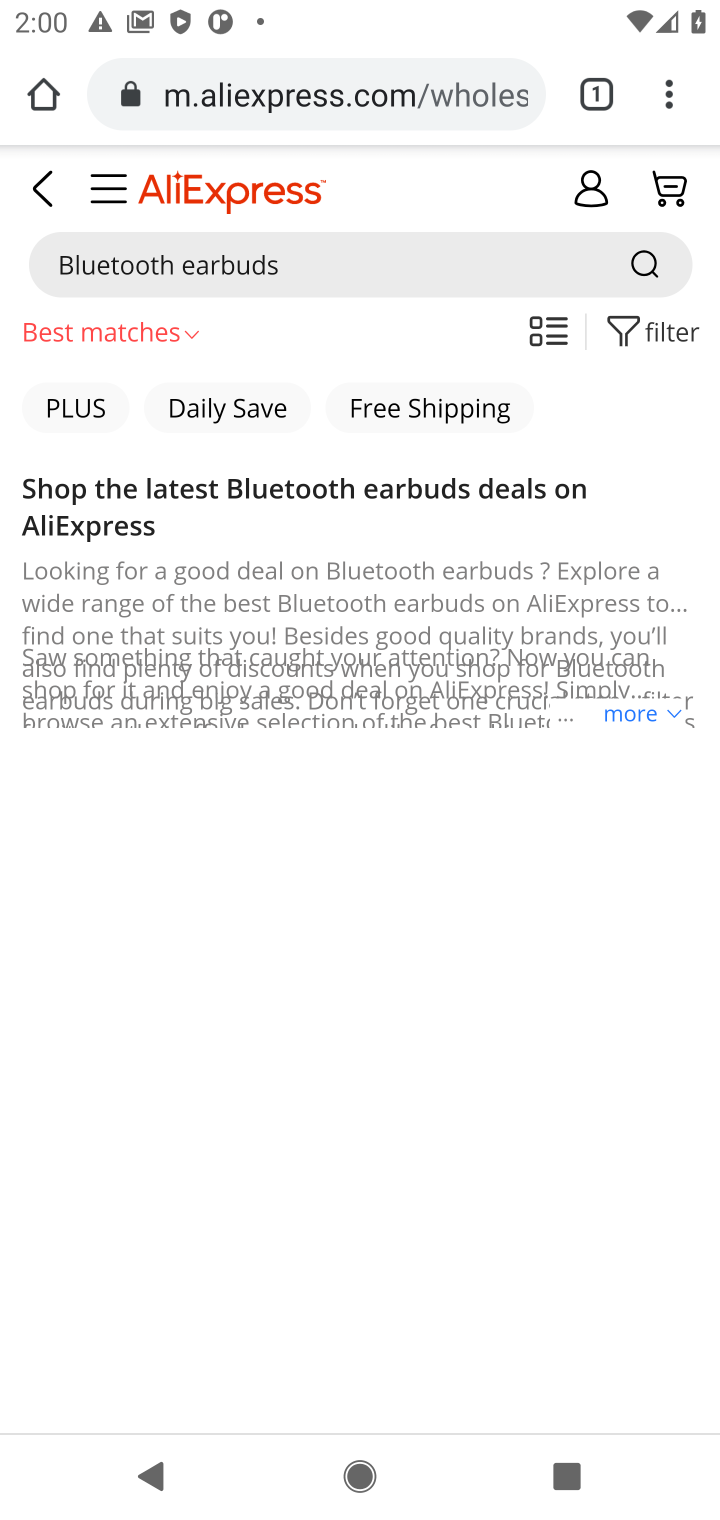
Step 30: drag from (290, 1160) to (636, 379)
Your task to perform on an android device: Search for the best rated Bluetooth earbuds on Ali express Image 31: 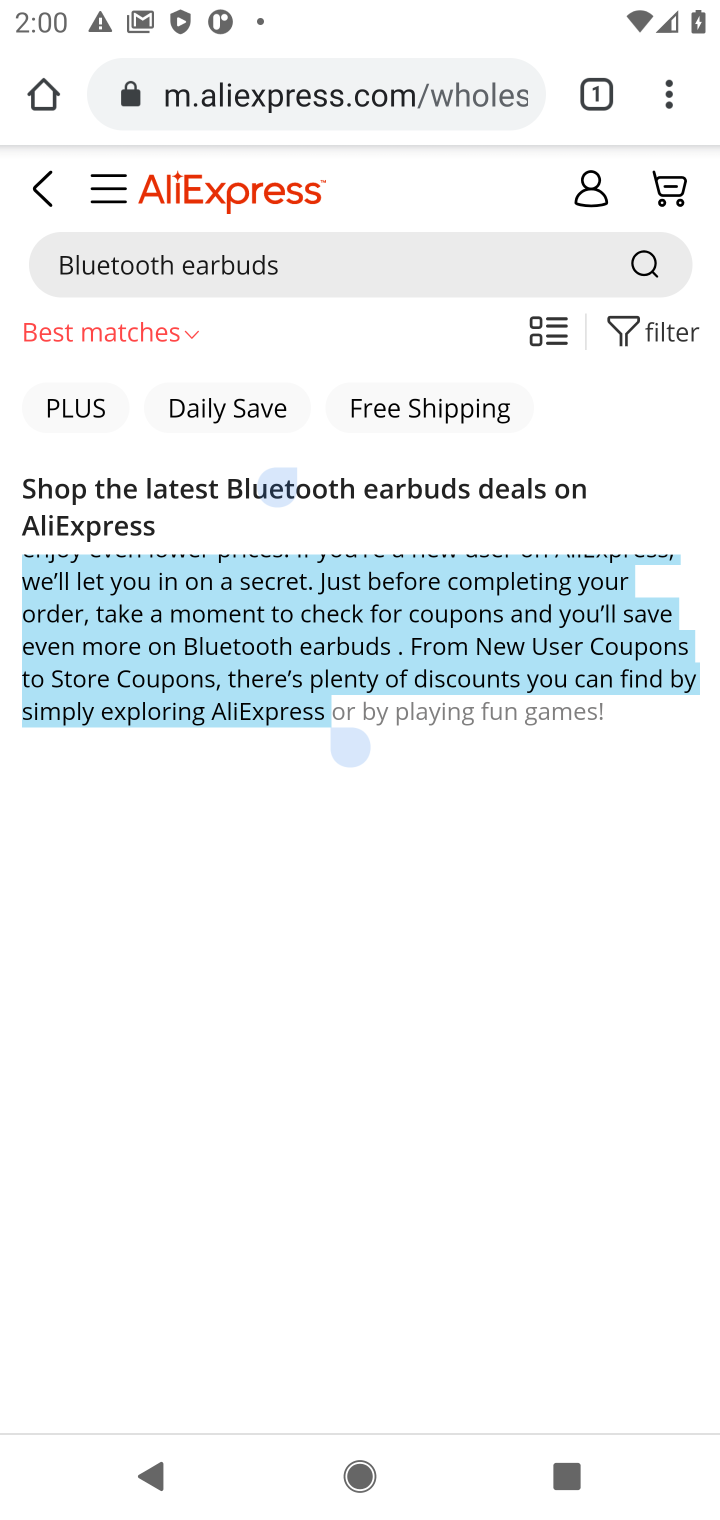
Step 31: drag from (478, 759) to (630, 358)
Your task to perform on an android device: Search for the best rated Bluetooth earbuds on Ali express Image 32: 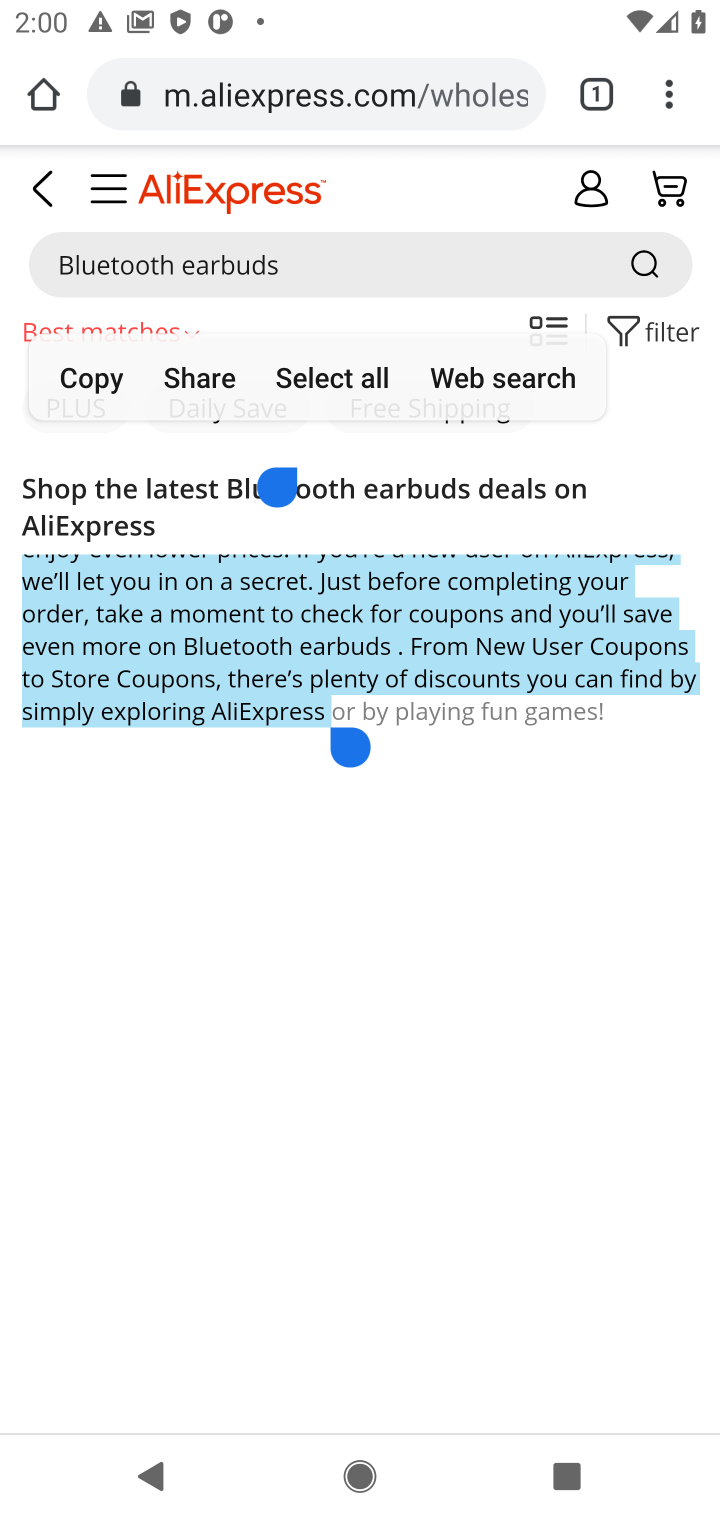
Step 32: click (458, 487)
Your task to perform on an android device: Search for the best rated Bluetooth earbuds on Ali express Image 33: 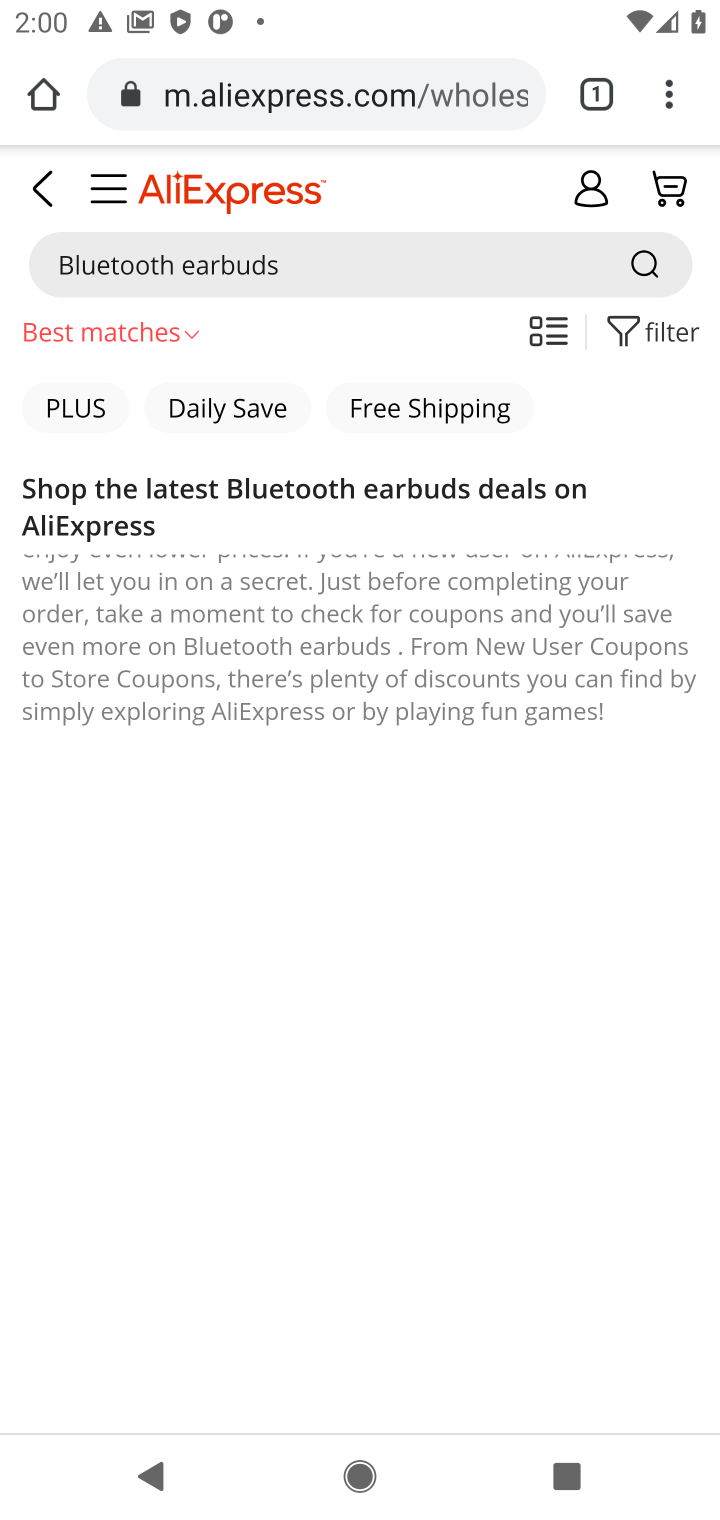
Step 33: drag from (541, 600) to (671, 258)
Your task to perform on an android device: Search for the best rated Bluetooth earbuds on Ali express Image 34: 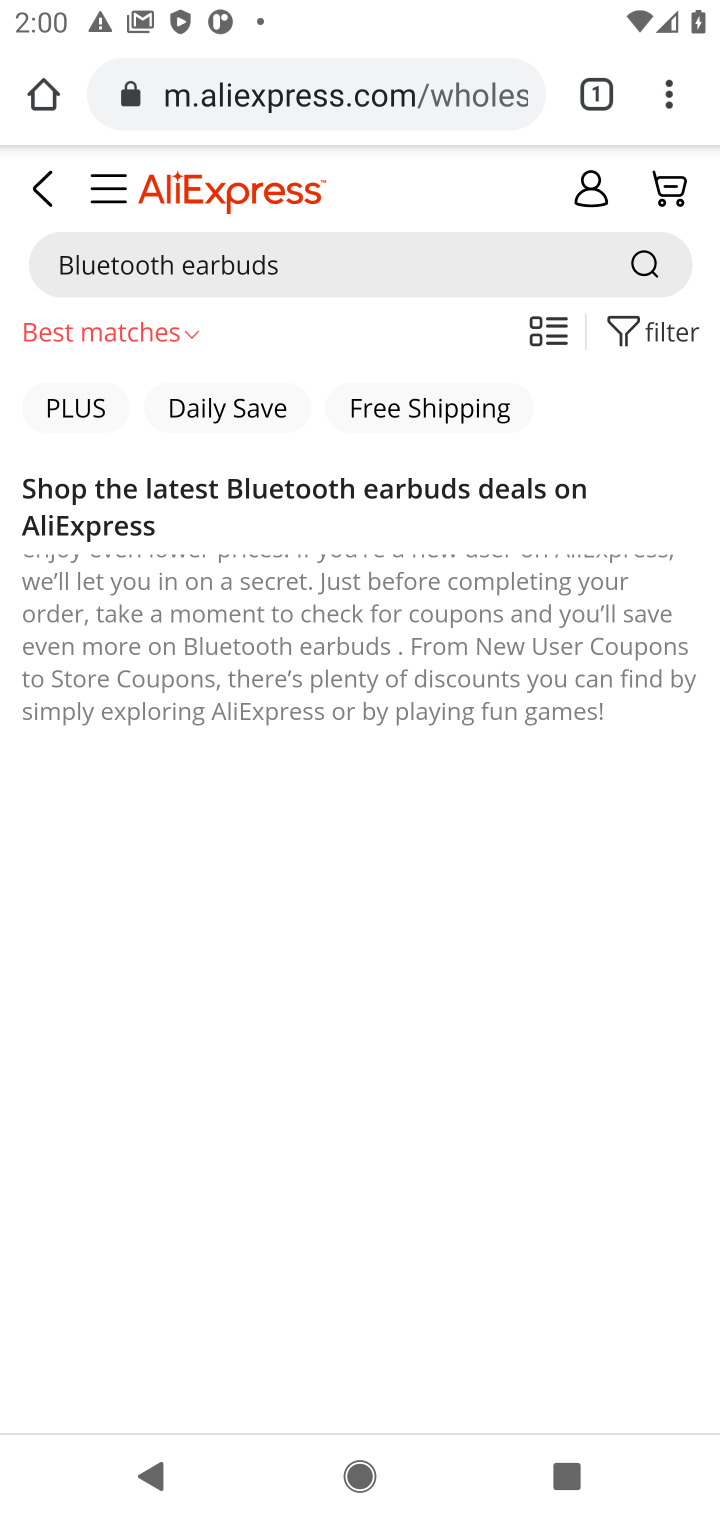
Step 34: drag from (483, 1205) to (468, 1489)
Your task to perform on an android device: Search for the best rated Bluetooth earbuds on Ali express Image 35: 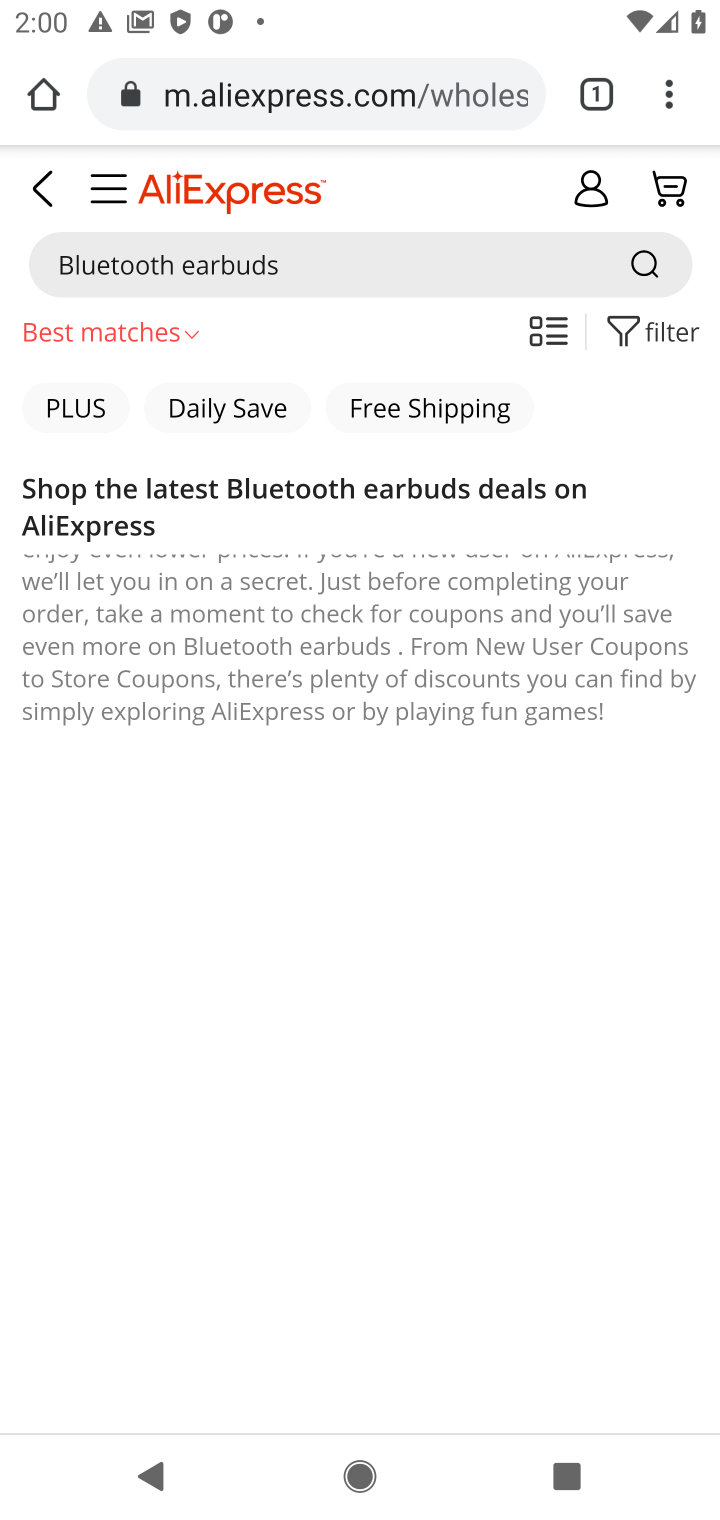
Step 35: click (405, 483)
Your task to perform on an android device: Search for the best rated Bluetooth earbuds on Ali express Image 36: 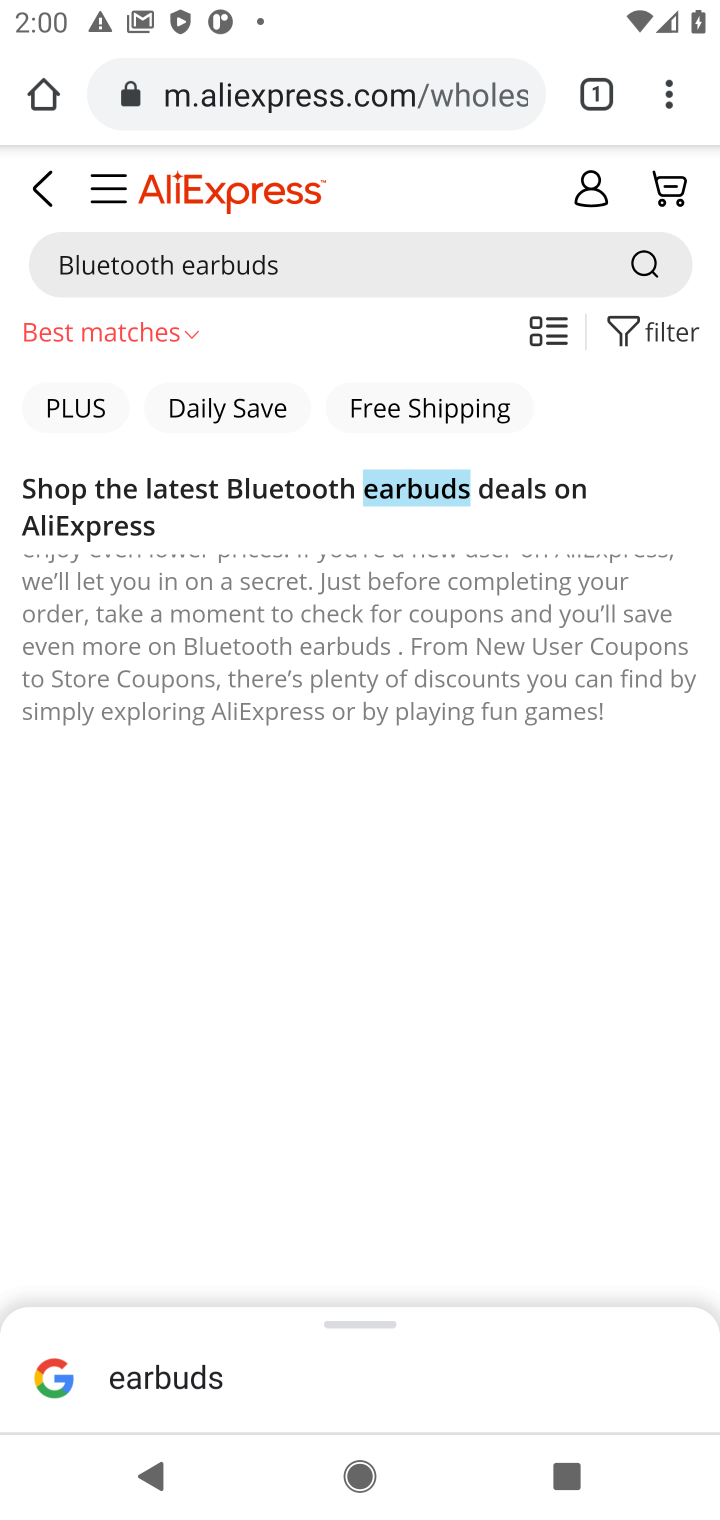
Step 36: drag from (371, 579) to (383, 1252)
Your task to perform on an android device: Search for the best rated Bluetooth earbuds on Ali express Image 37: 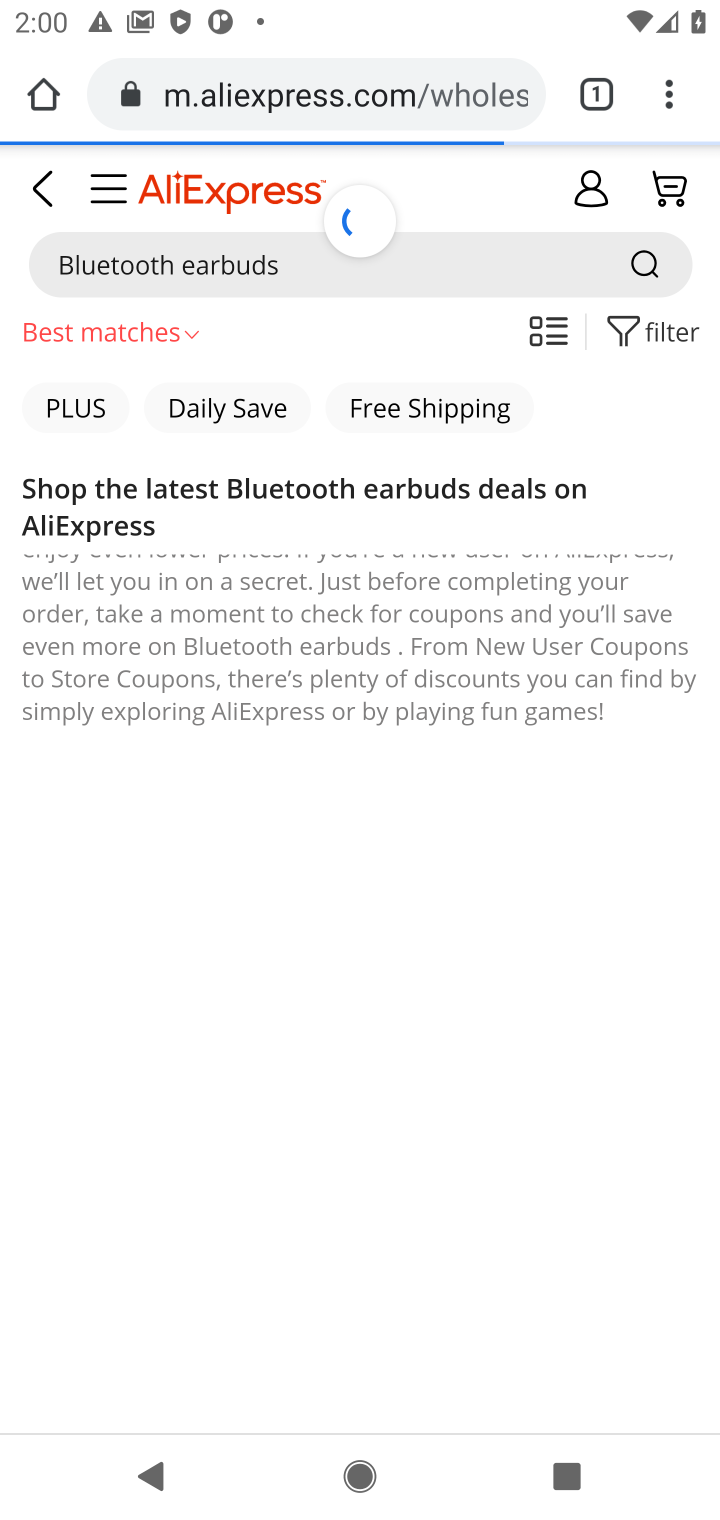
Step 37: drag from (287, 843) to (468, 526)
Your task to perform on an android device: Search for the best rated Bluetooth earbuds on Ali express Image 38: 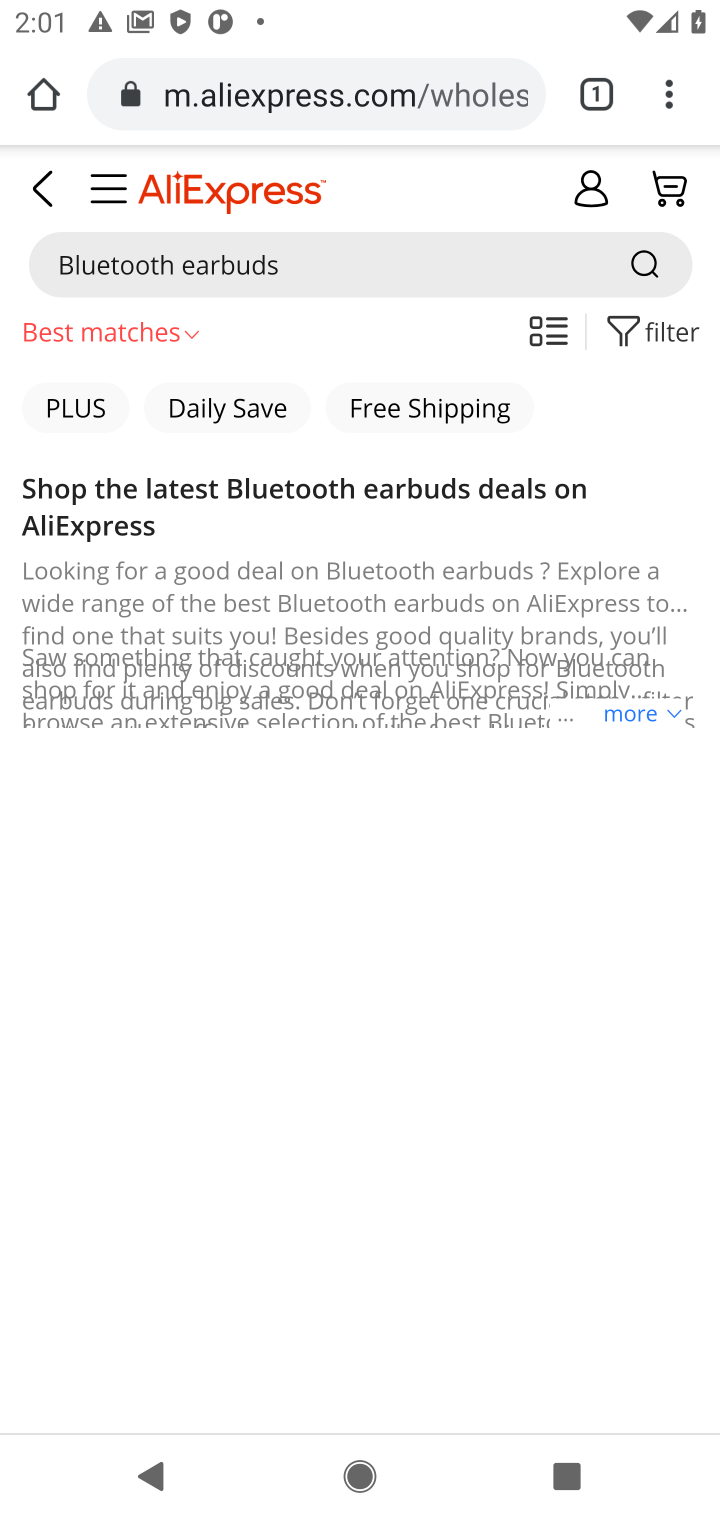
Step 38: drag from (380, 635) to (456, 367)
Your task to perform on an android device: Search for the best rated Bluetooth earbuds on Ali express Image 39: 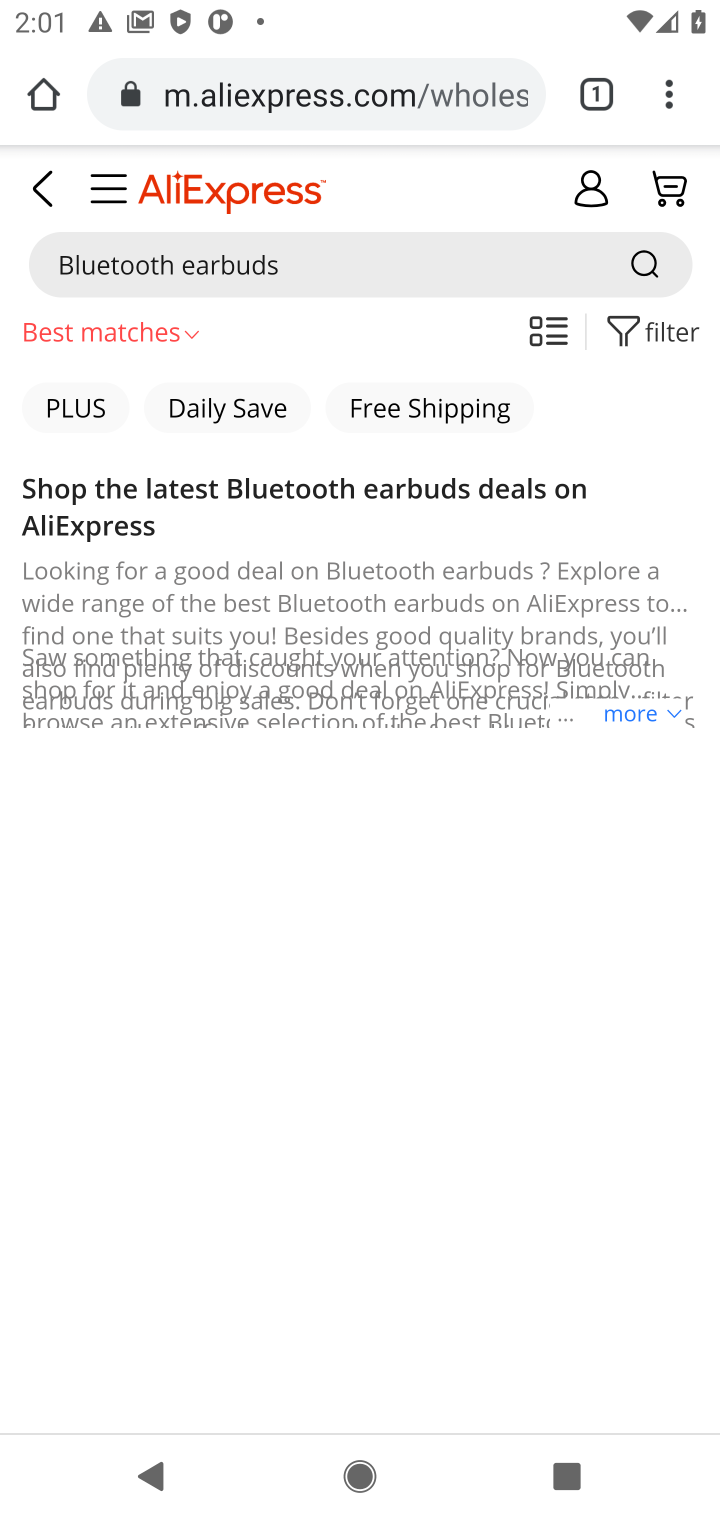
Step 39: click (657, 710)
Your task to perform on an android device: Search for the best rated Bluetooth earbuds on Ali express Image 40: 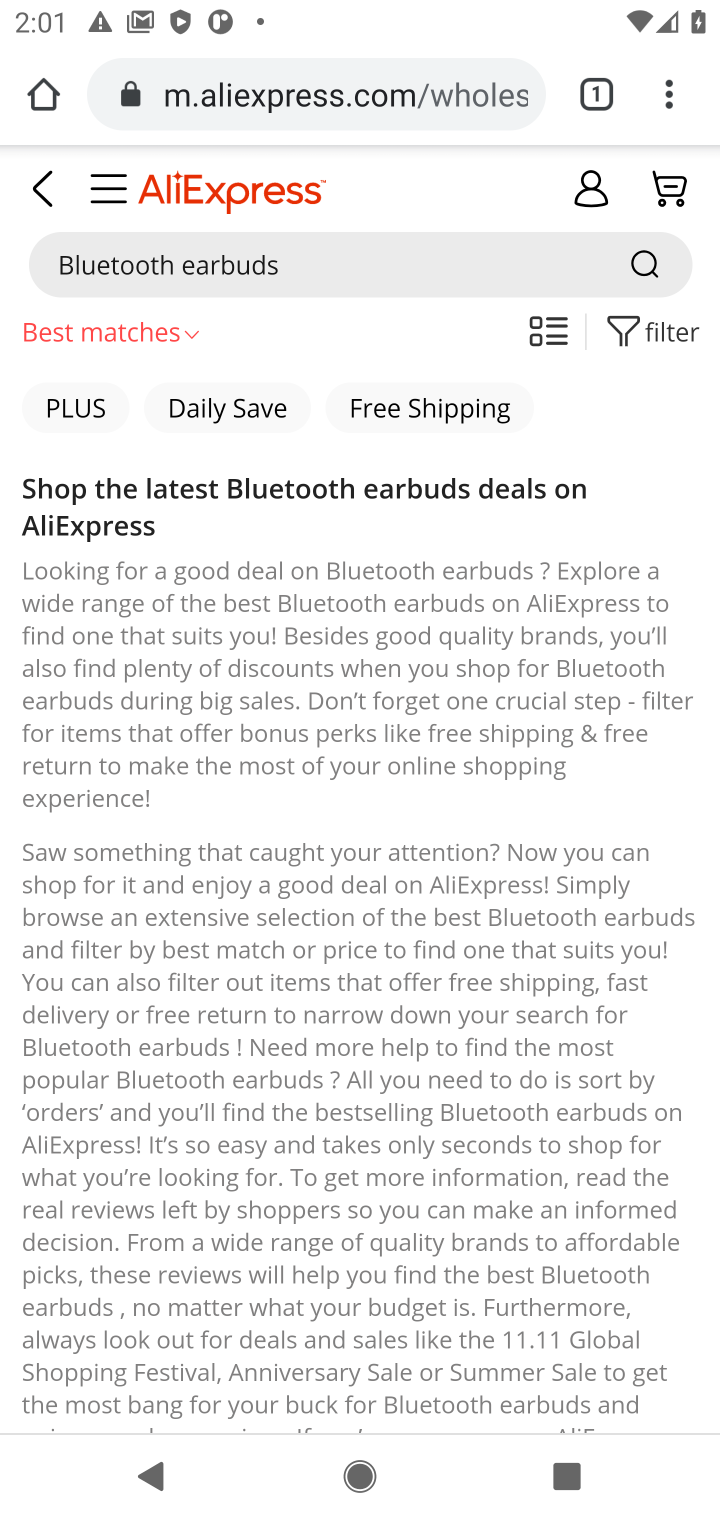
Step 40: task complete